Your task to perform on an android device: Empty the shopping cart on target.com. Add "usb-c" to the cart on target.com, then select checkout. Image 0: 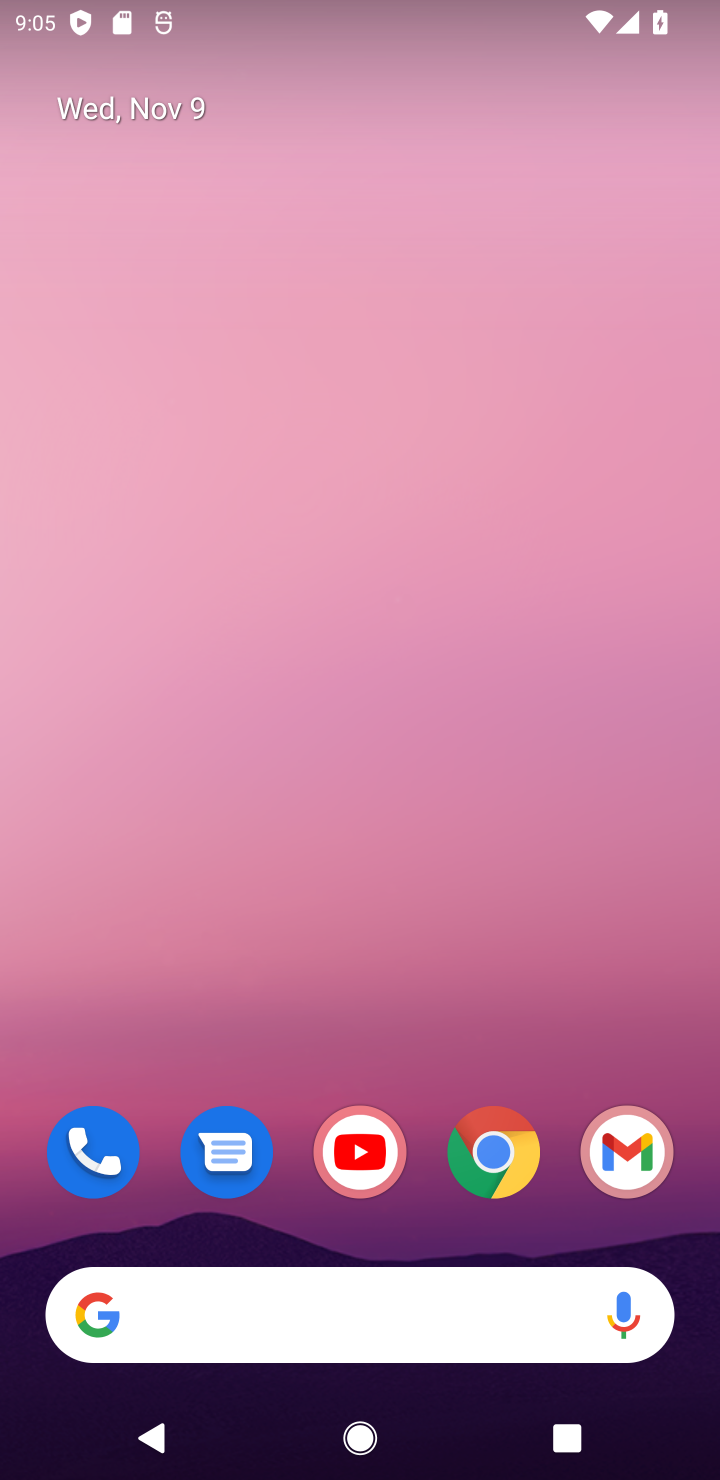
Step 0: click (487, 1155)
Your task to perform on an android device: Empty the shopping cart on target.com. Add "usb-c" to the cart on target.com, then select checkout. Image 1: 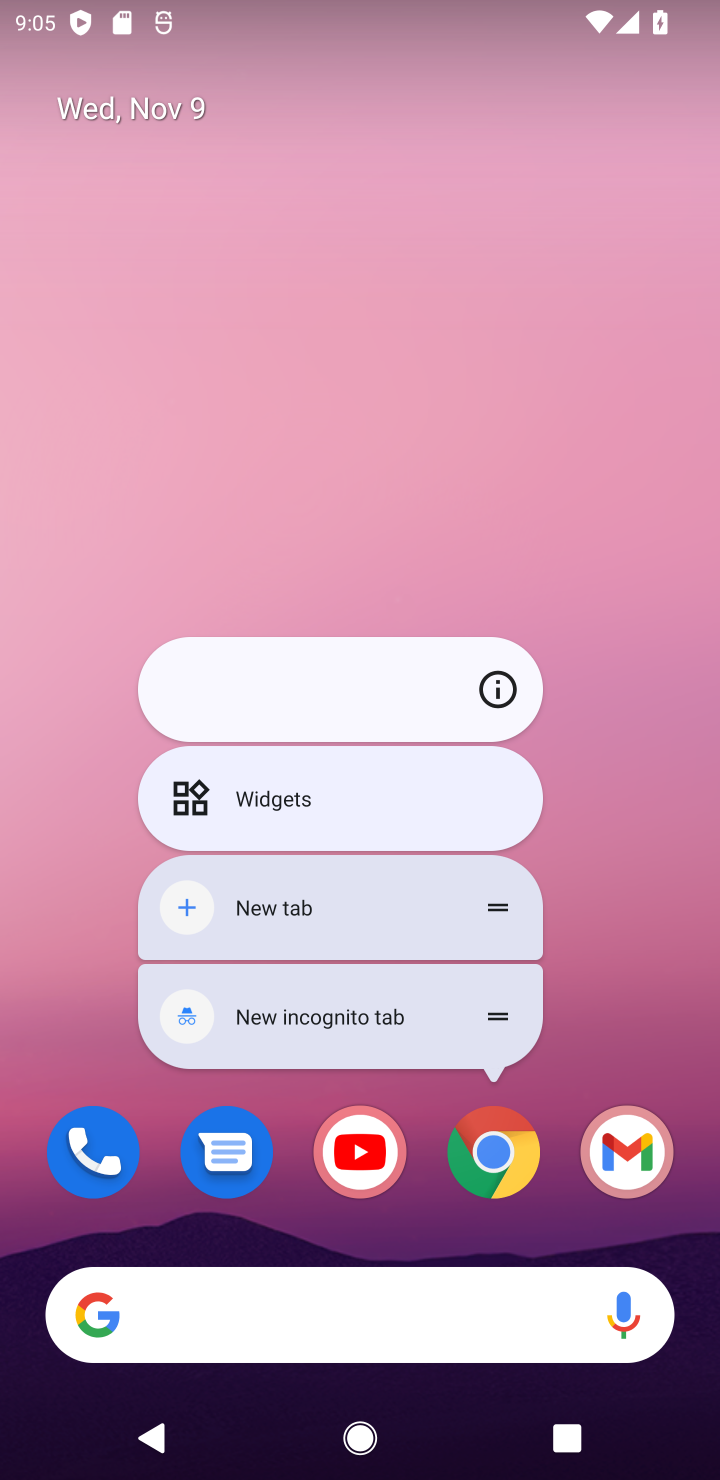
Step 1: click (487, 1160)
Your task to perform on an android device: Empty the shopping cart on target.com. Add "usb-c" to the cart on target.com, then select checkout. Image 2: 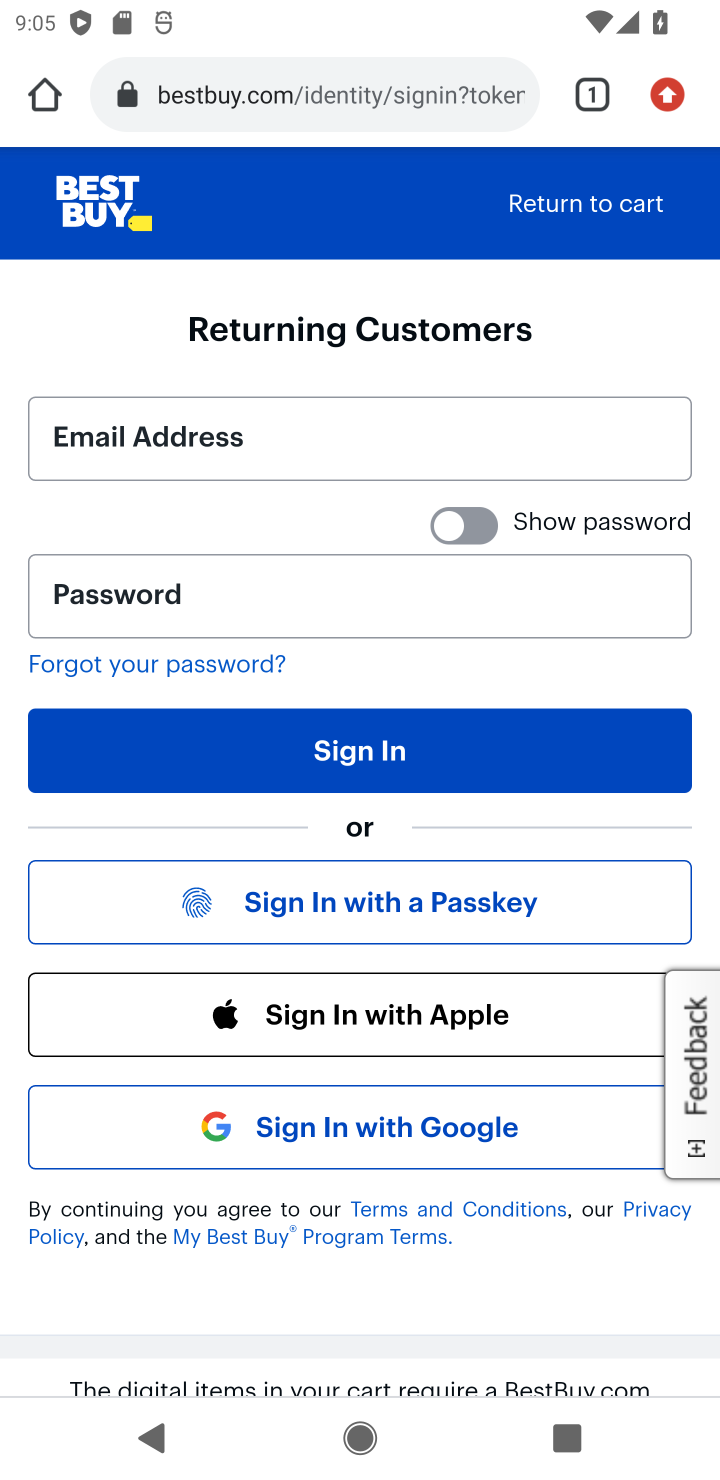
Step 2: click (344, 90)
Your task to perform on an android device: Empty the shopping cart on target.com. Add "usb-c" to the cart on target.com, then select checkout. Image 3: 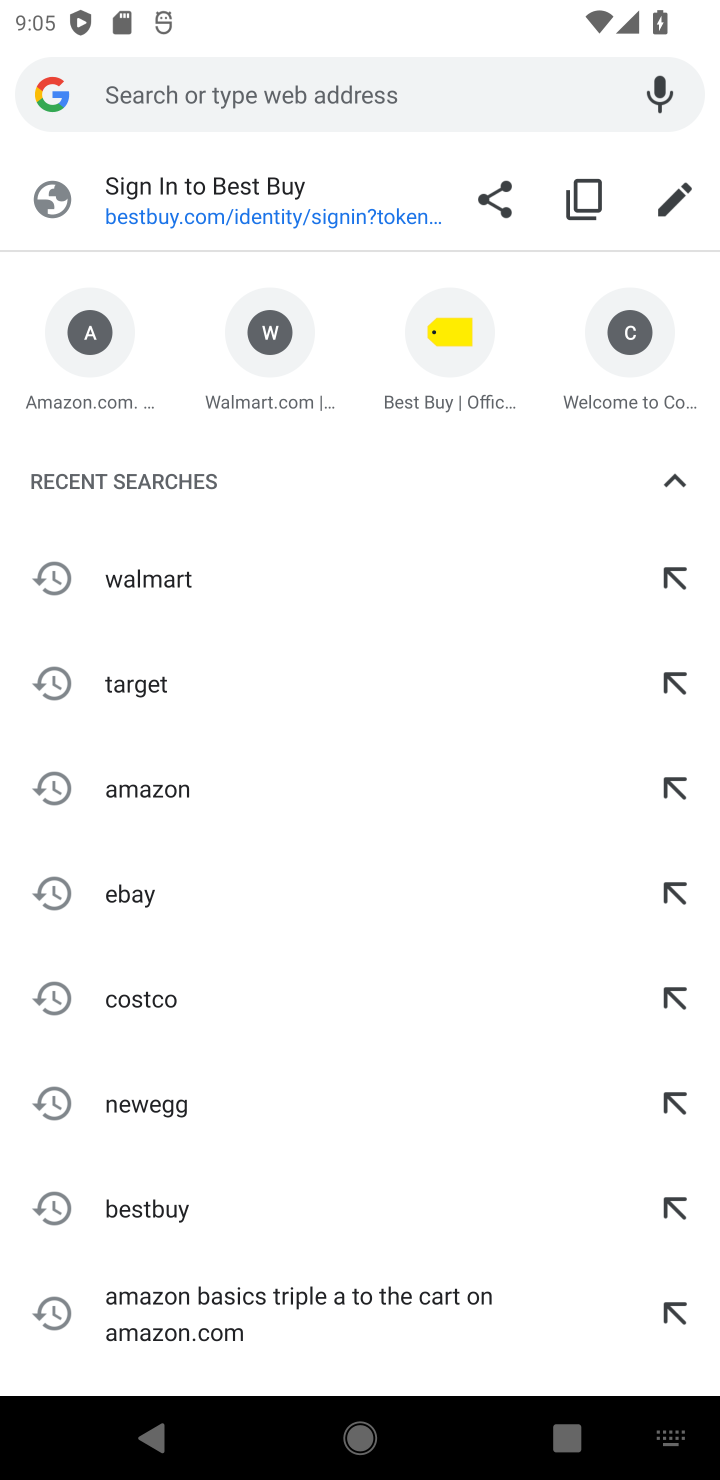
Step 3: click (133, 678)
Your task to perform on an android device: Empty the shopping cart on target.com. Add "usb-c" to the cart on target.com, then select checkout. Image 4: 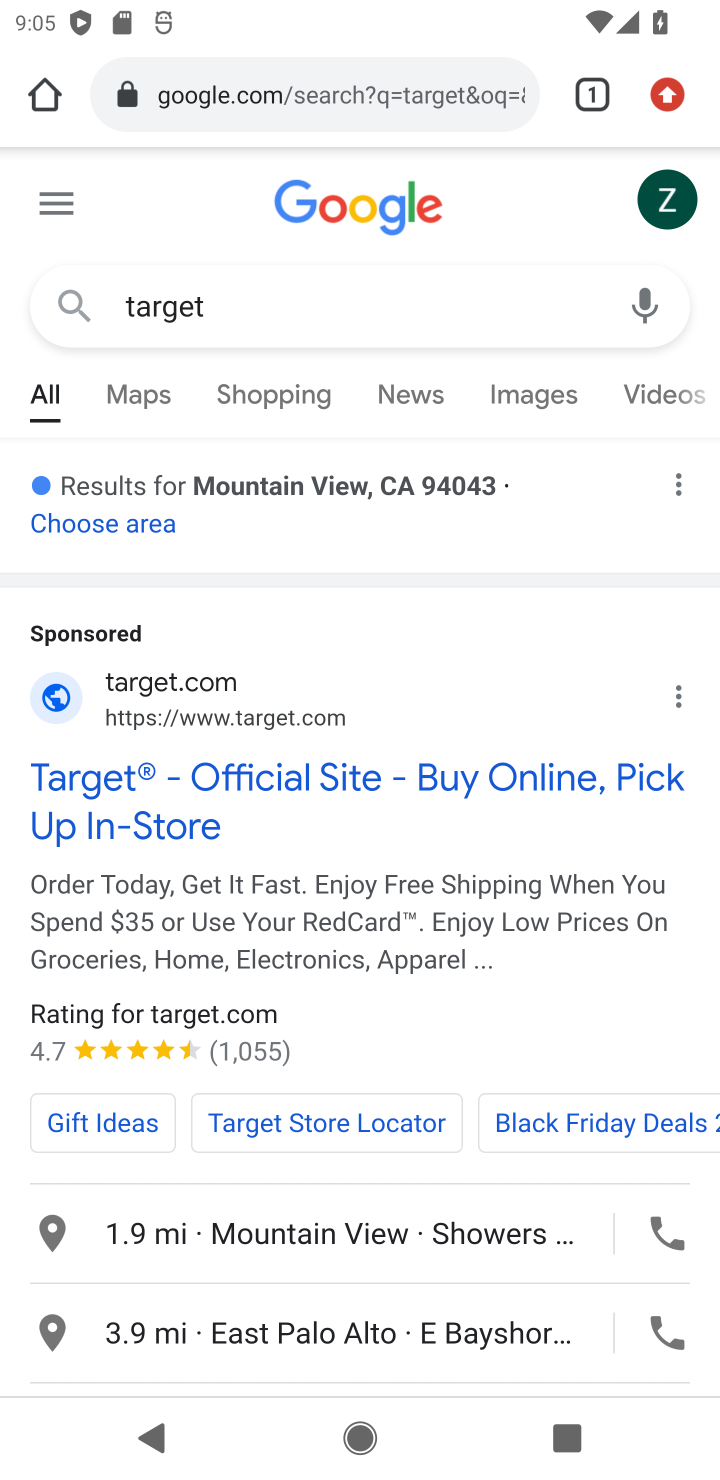
Step 4: drag from (243, 1109) to (541, 306)
Your task to perform on an android device: Empty the shopping cart on target.com. Add "usb-c" to the cart on target.com, then select checkout. Image 5: 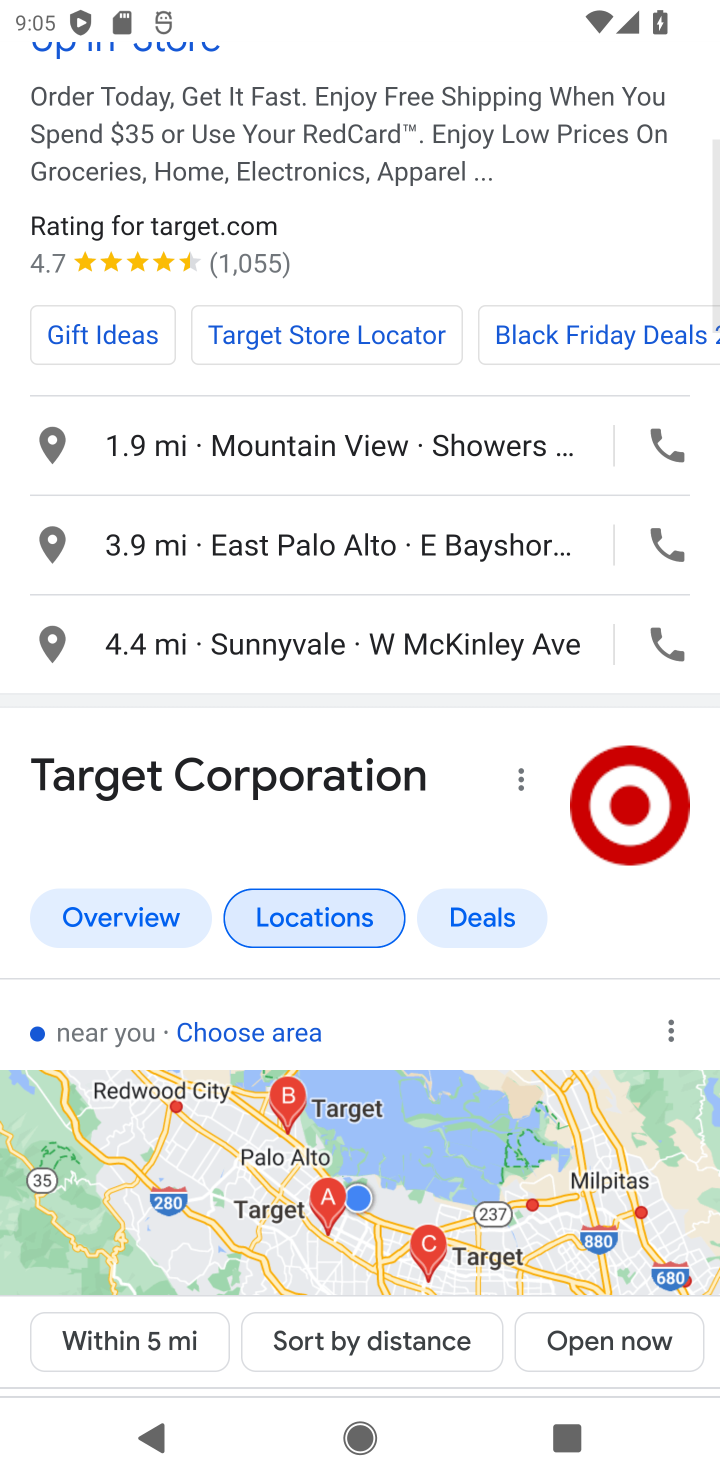
Step 5: drag from (307, 1103) to (414, 286)
Your task to perform on an android device: Empty the shopping cart on target.com. Add "usb-c" to the cart on target.com, then select checkout. Image 6: 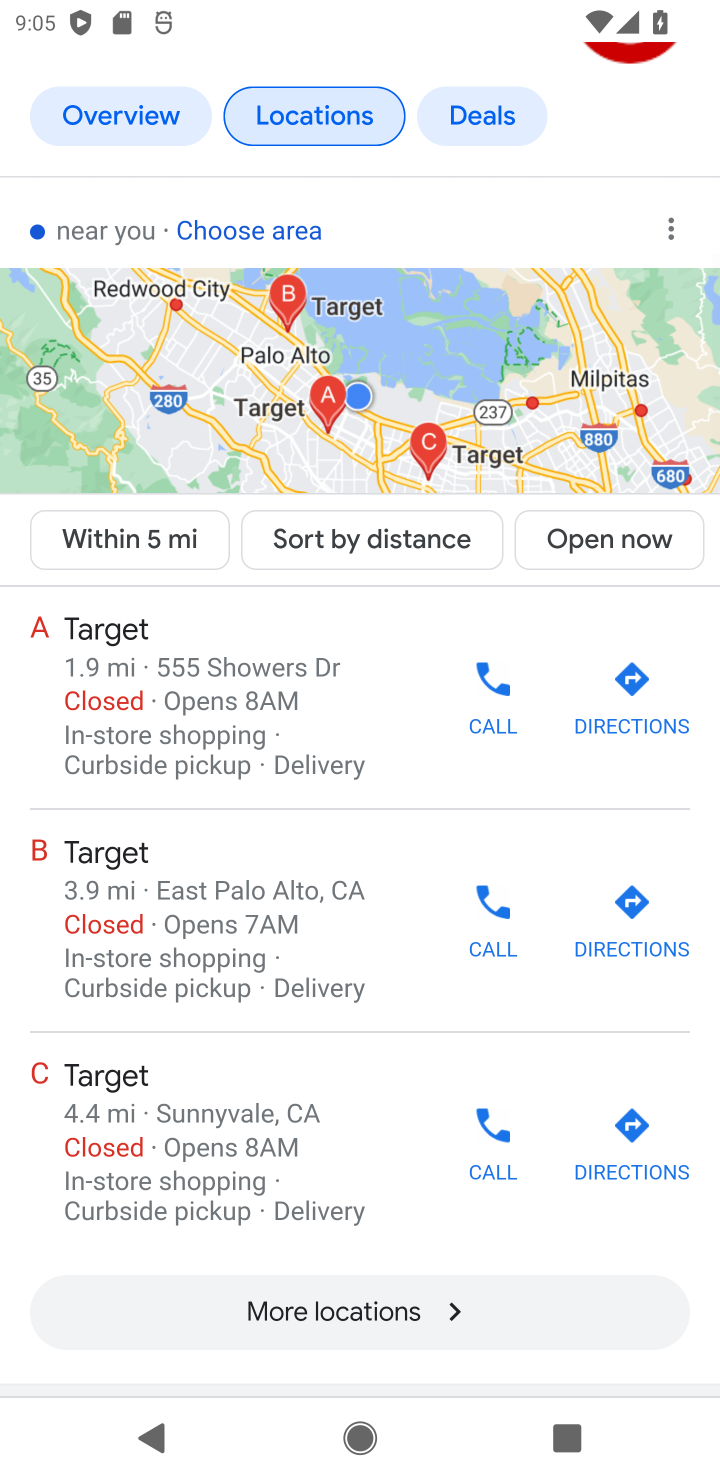
Step 6: drag from (308, 1197) to (438, 232)
Your task to perform on an android device: Empty the shopping cart on target.com. Add "usb-c" to the cart on target.com, then select checkout. Image 7: 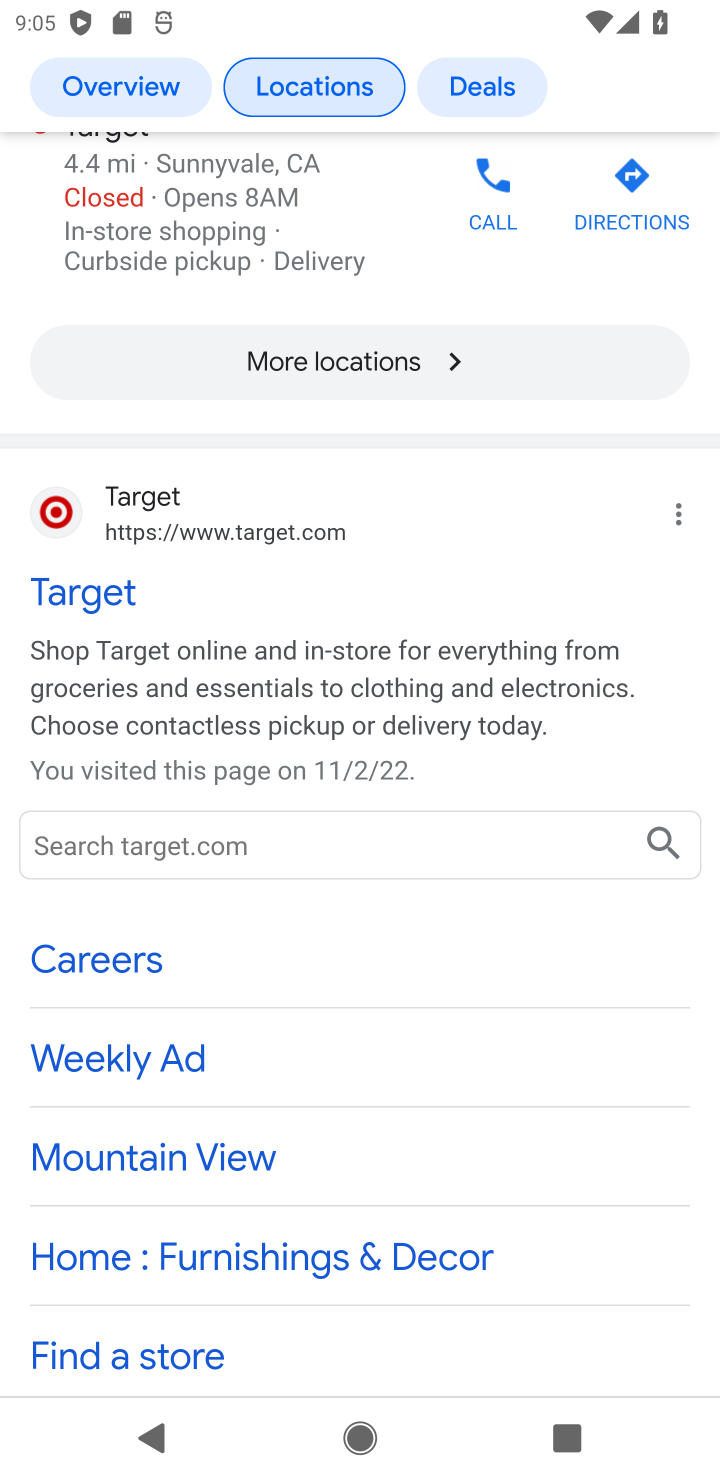
Step 7: click (86, 589)
Your task to perform on an android device: Empty the shopping cart on target.com. Add "usb-c" to the cart on target.com, then select checkout. Image 8: 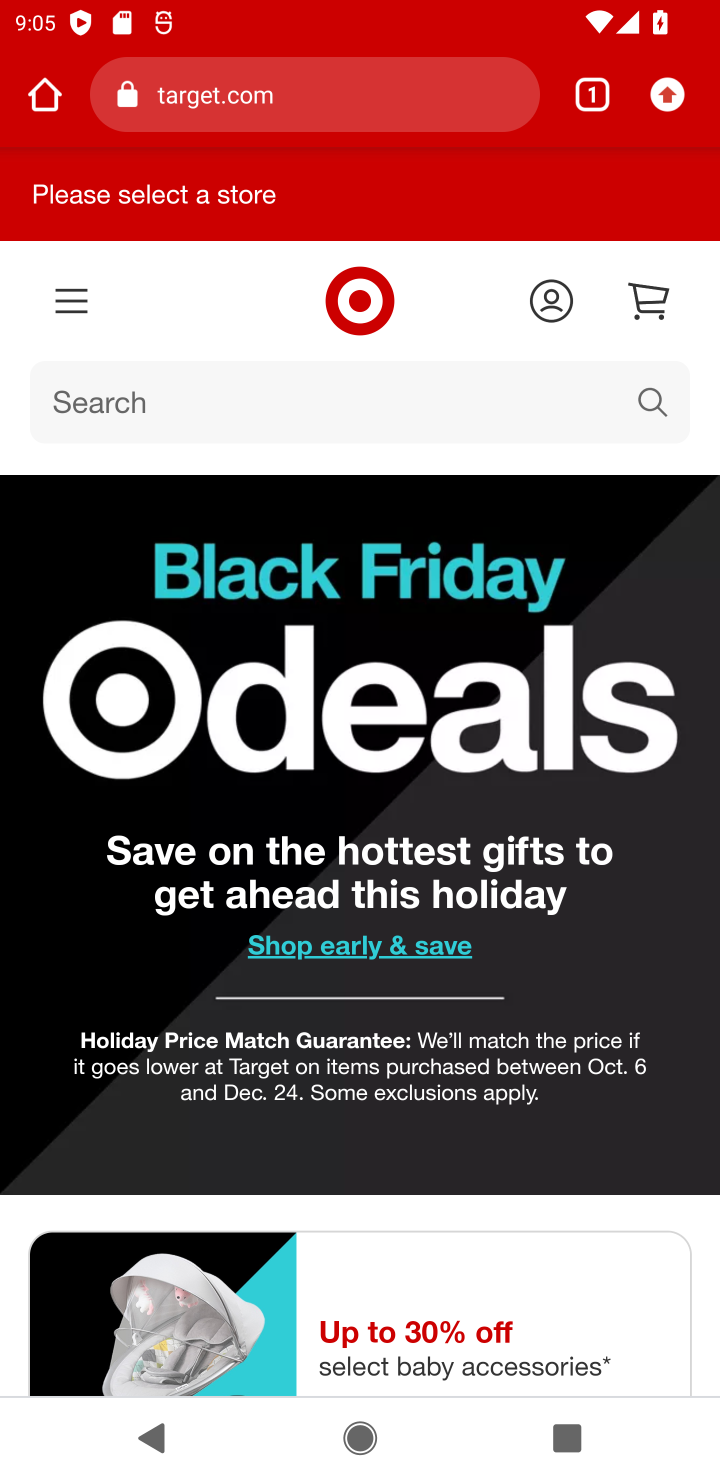
Step 8: click (192, 412)
Your task to perform on an android device: Empty the shopping cart on target.com. Add "usb-c" to the cart on target.com, then select checkout. Image 9: 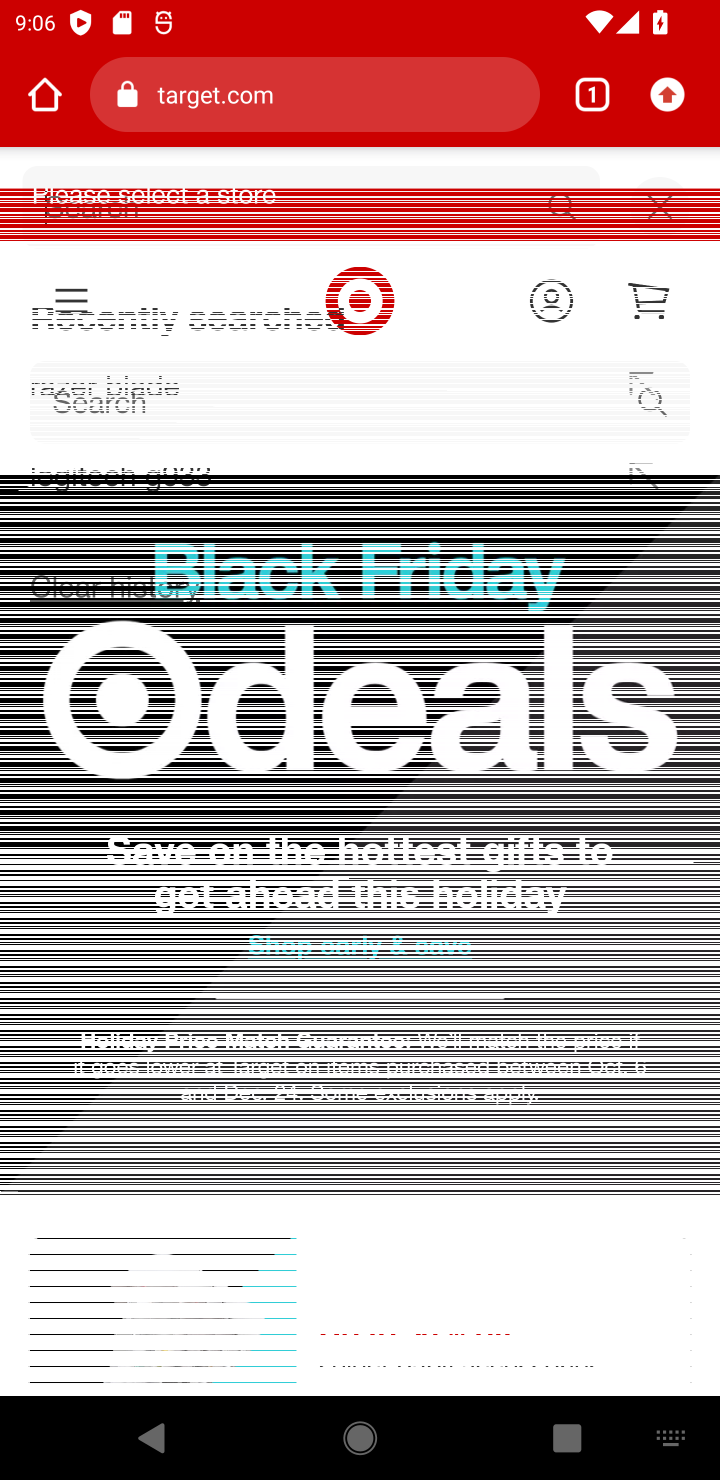
Step 9: press enter
Your task to perform on an android device: Empty the shopping cart on target.com. Add "usb-c" to the cart on target.com, then select checkout. Image 10: 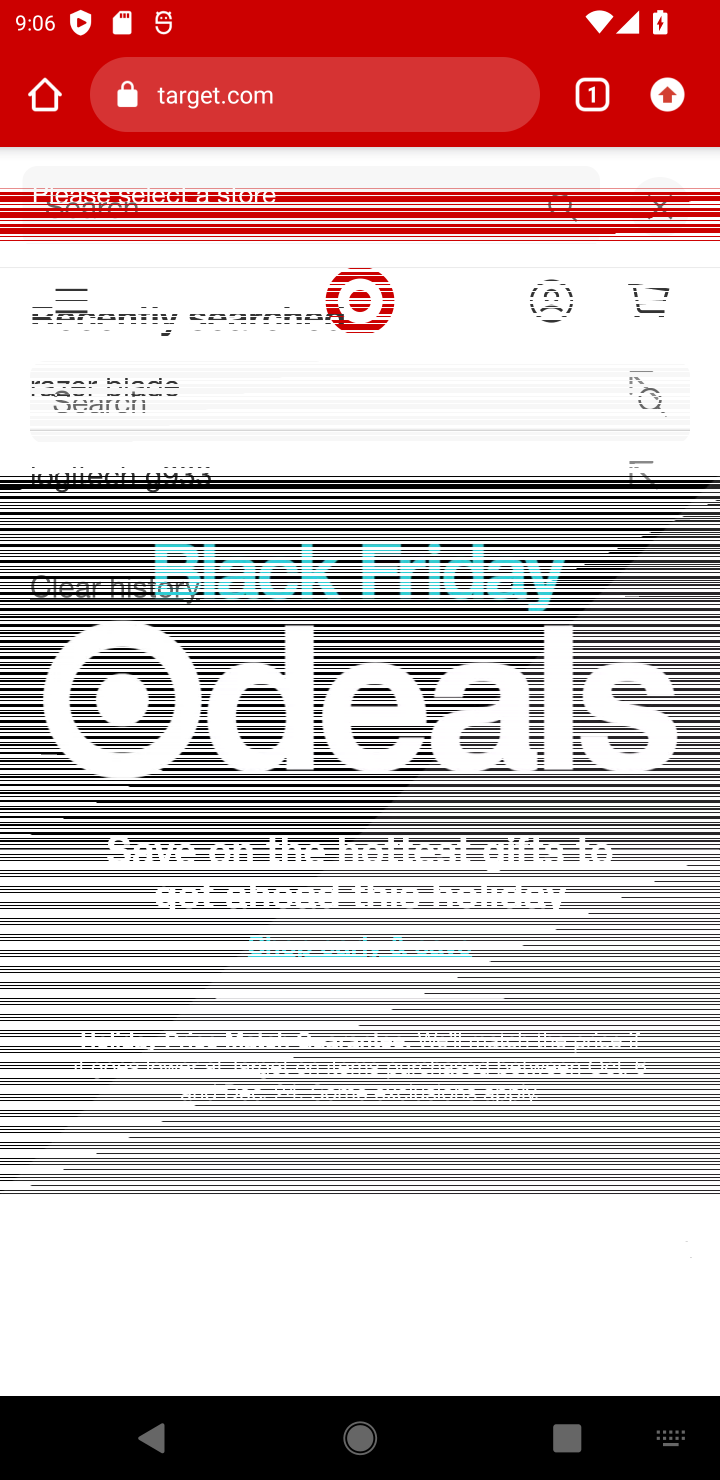
Step 10: type "usb-c"
Your task to perform on an android device: Empty the shopping cart on target.com. Add "usb-c" to the cart on target.com, then select checkout. Image 11: 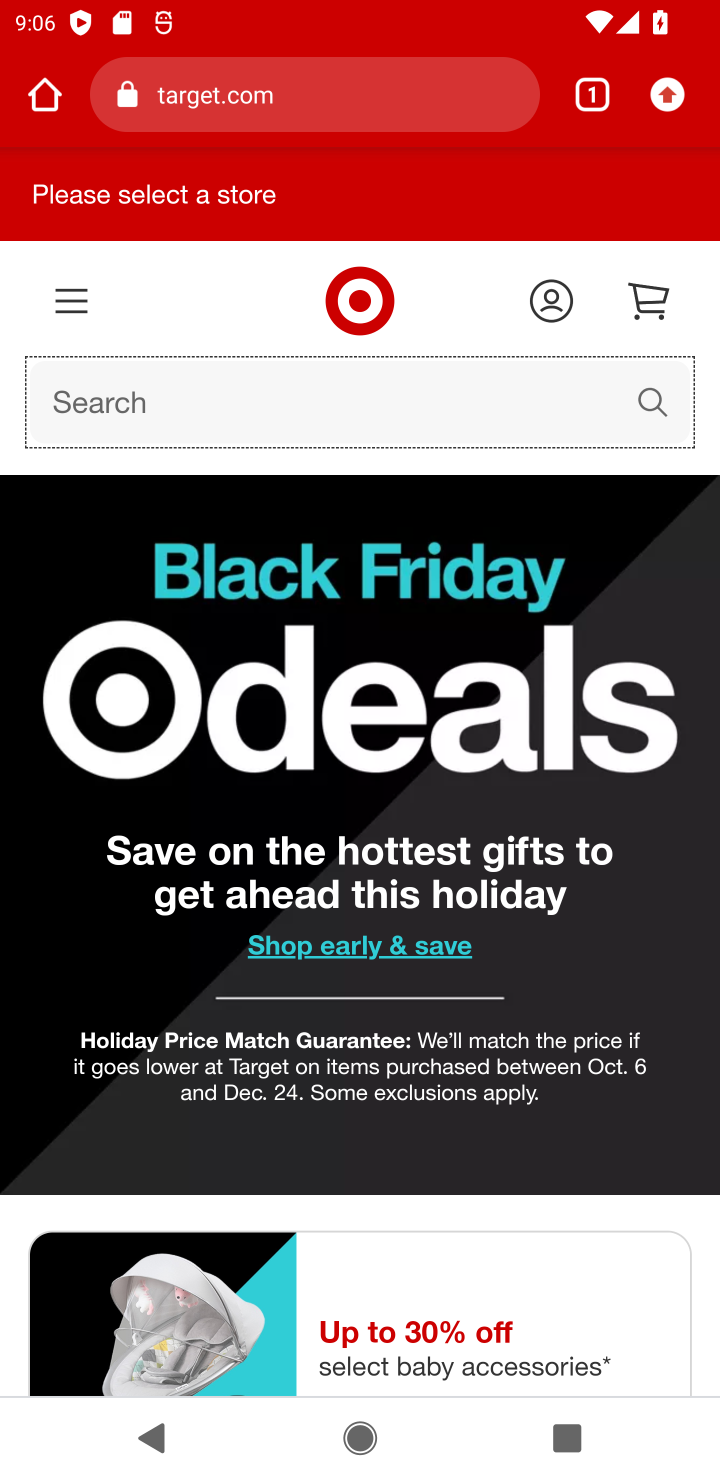
Step 11: click (19, 390)
Your task to perform on an android device: Empty the shopping cart on target.com. Add "usb-c" to the cart on target.com, then select checkout. Image 12: 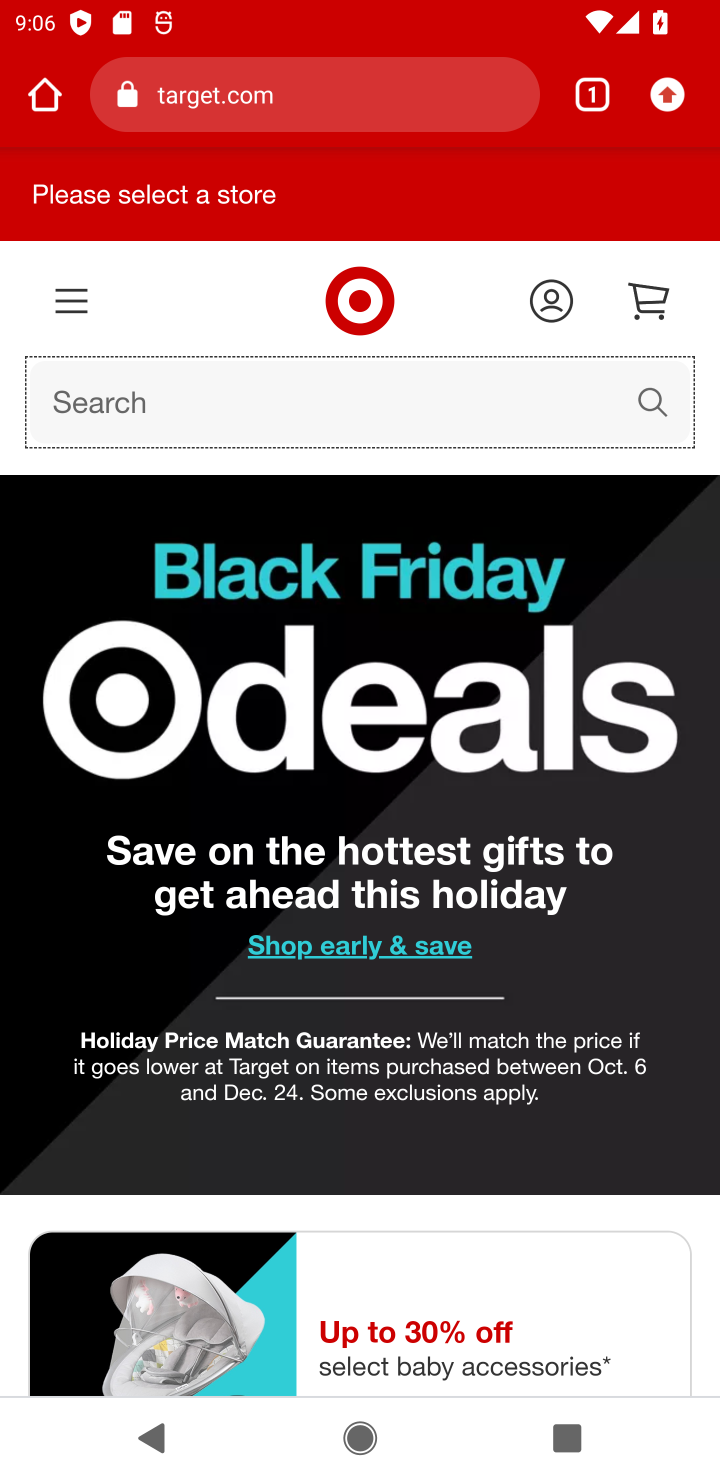
Step 12: click (66, 409)
Your task to perform on an android device: Empty the shopping cart on target.com. Add "usb-c" to the cart on target.com, then select checkout. Image 13: 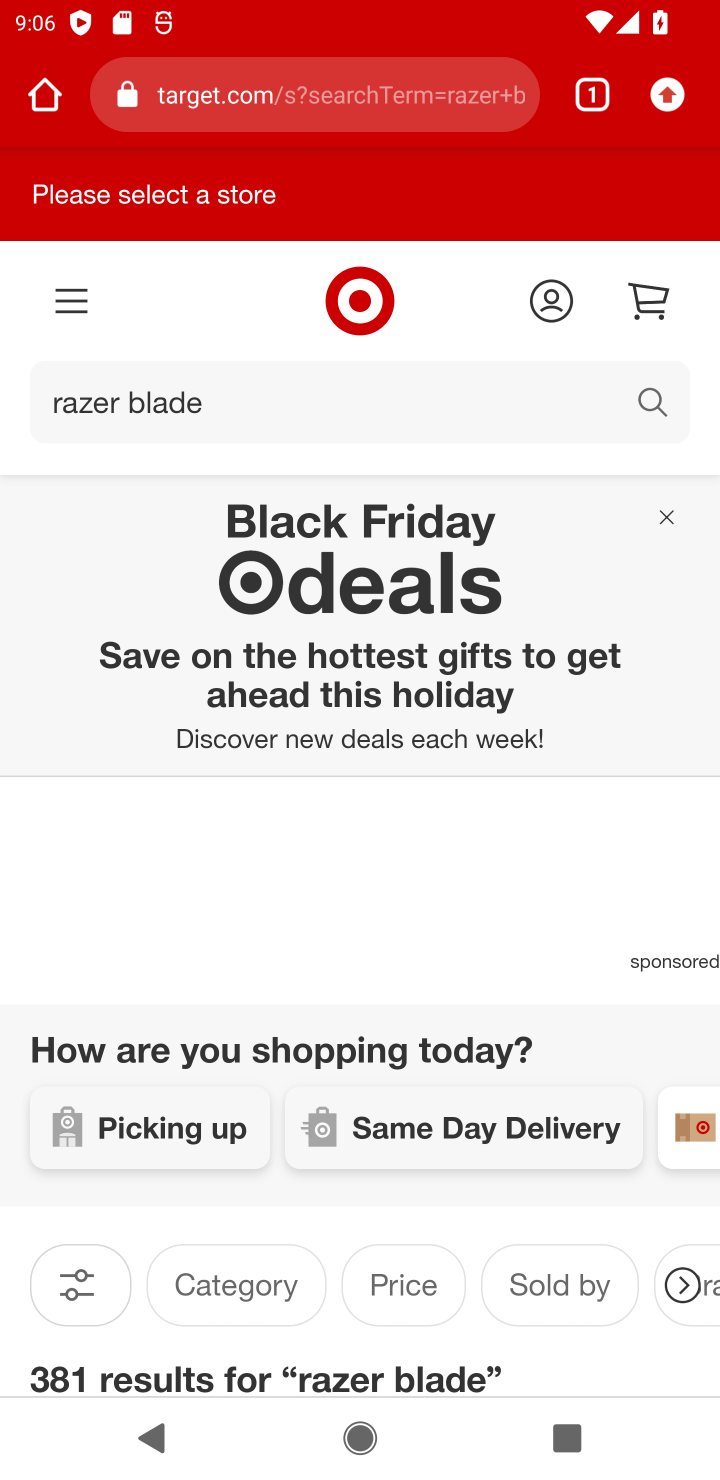
Step 13: click (513, 397)
Your task to perform on an android device: Empty the shopping cart on target.com. Add "usb-c" to the cart on target.com, then select checkout. Image 14: 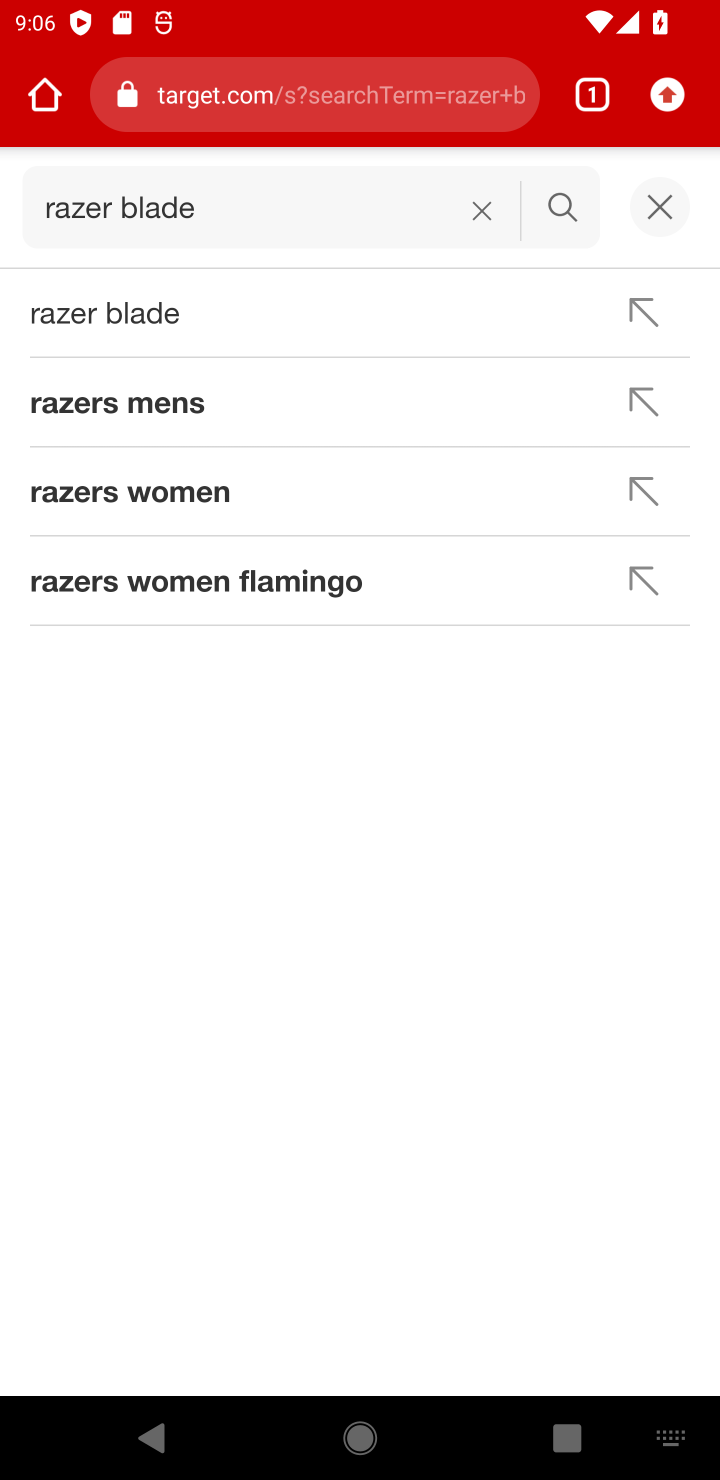
Step 14: click (477, 215)
Your task to perform on an android device: Empty the shopping cart on target.com. Add "usb-c" to the cart on target.com, then select checkout. Image 15: 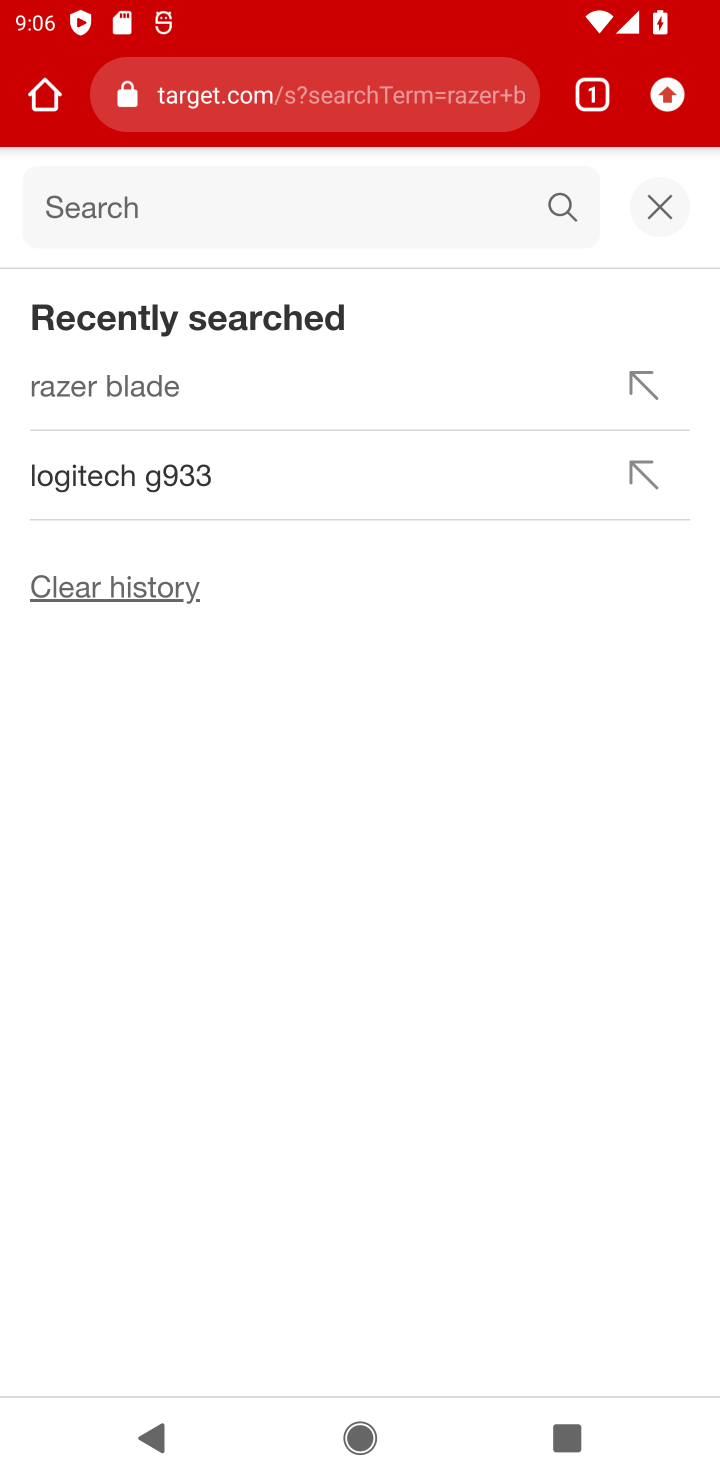
Step 15: click (64, 181)
Your task to perform on an android device: Empty the shopping cart on target.com. Add "usb-c" to the cart on target.com, then select checkout. Image 16: 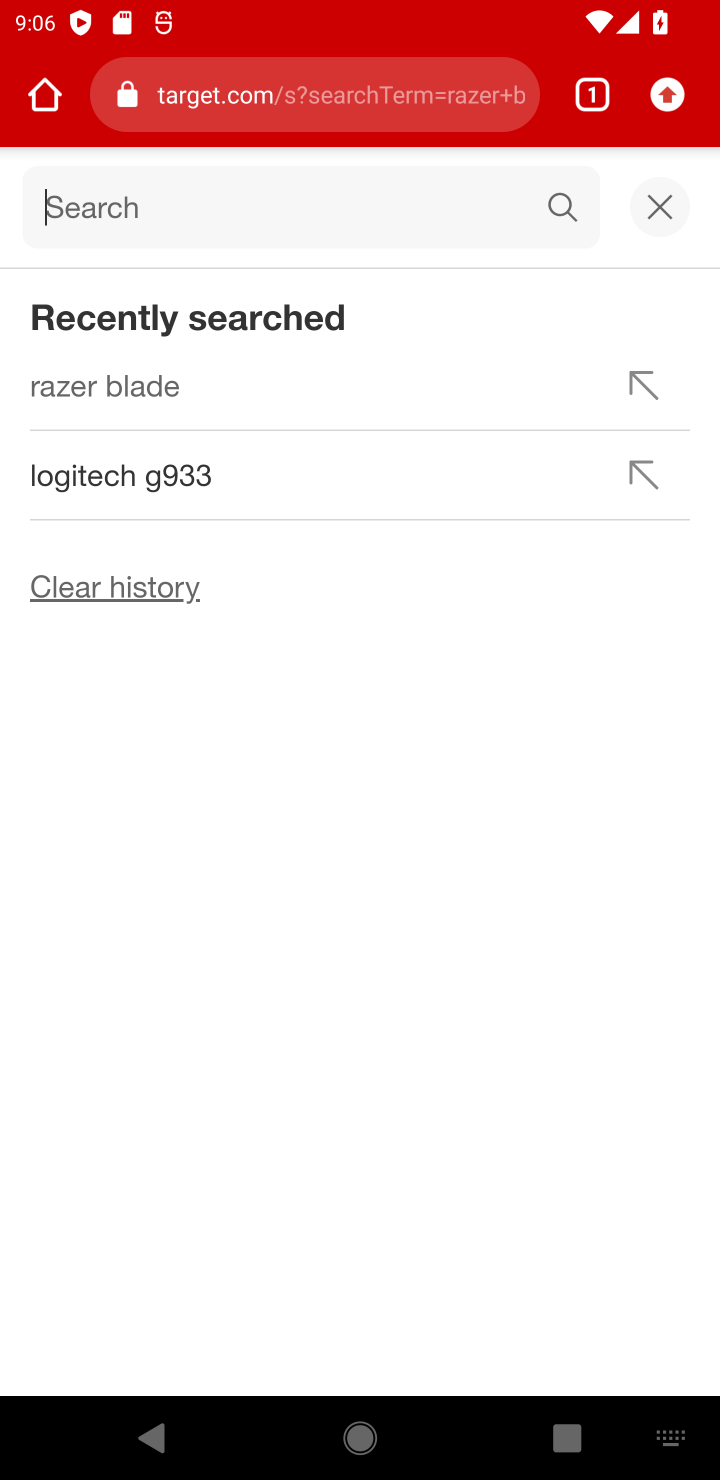
Step 16: press enter
Your task to perform on an android device: Empty the shopping cart on target.com. Add "usb-c" to the cart on target.com, then select checkout. Image 17: 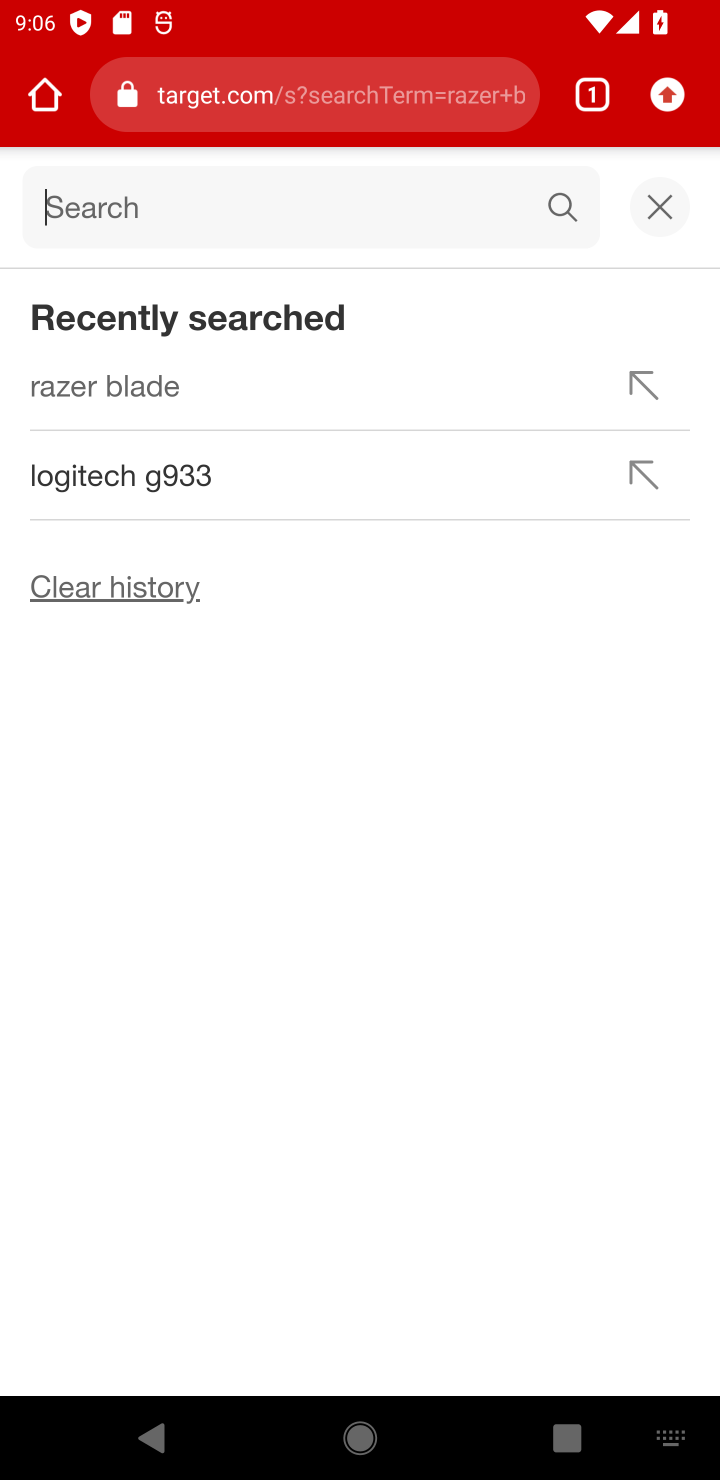
Step 17: type "usb-c"
Your task to perform on an android device: Empty the shopping cart on target.com. Add "usb-c" to the cart on target.com, then select checkout. Image 18: 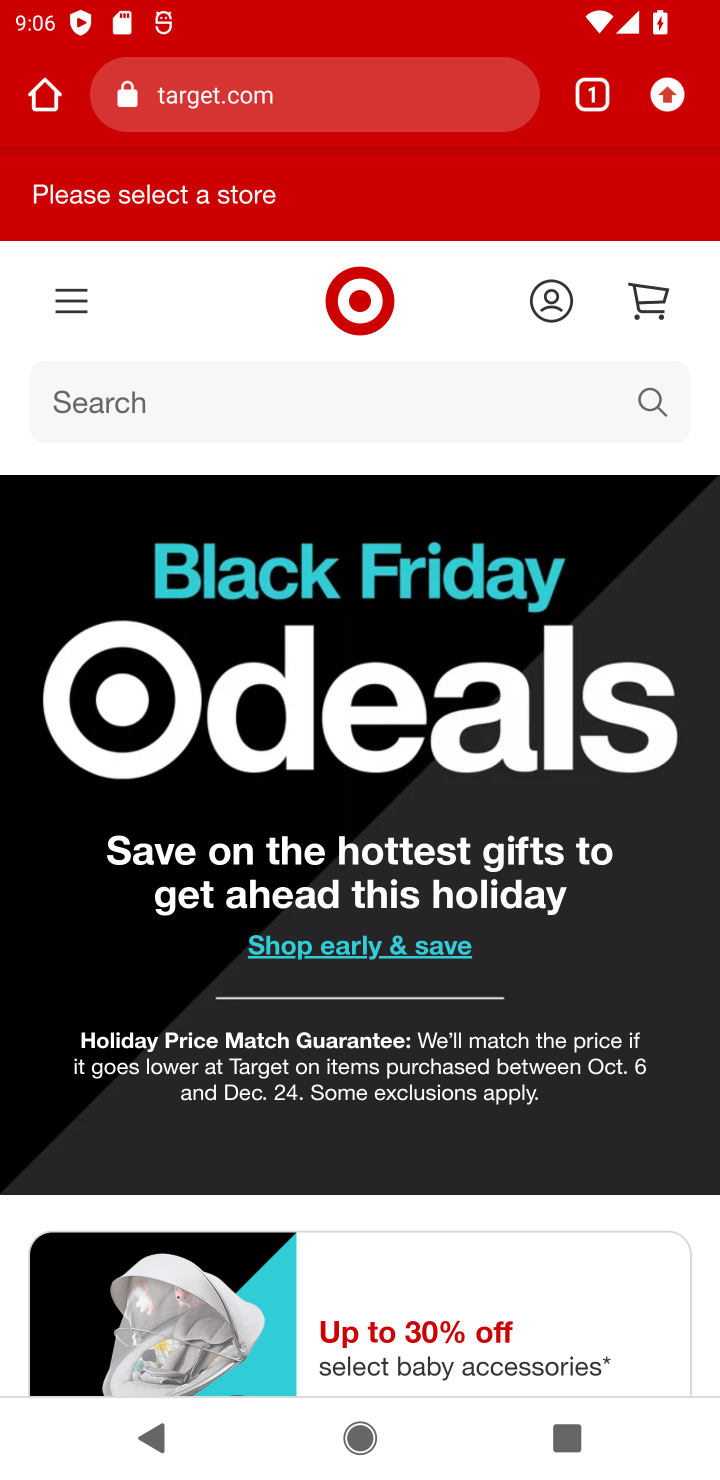
Step 18: click (125, 398)
Your task to perform on an android device: Empty the shopping cart on target.com. Add "usb-c" to the cart on target.com, then select checkout. Image 19: 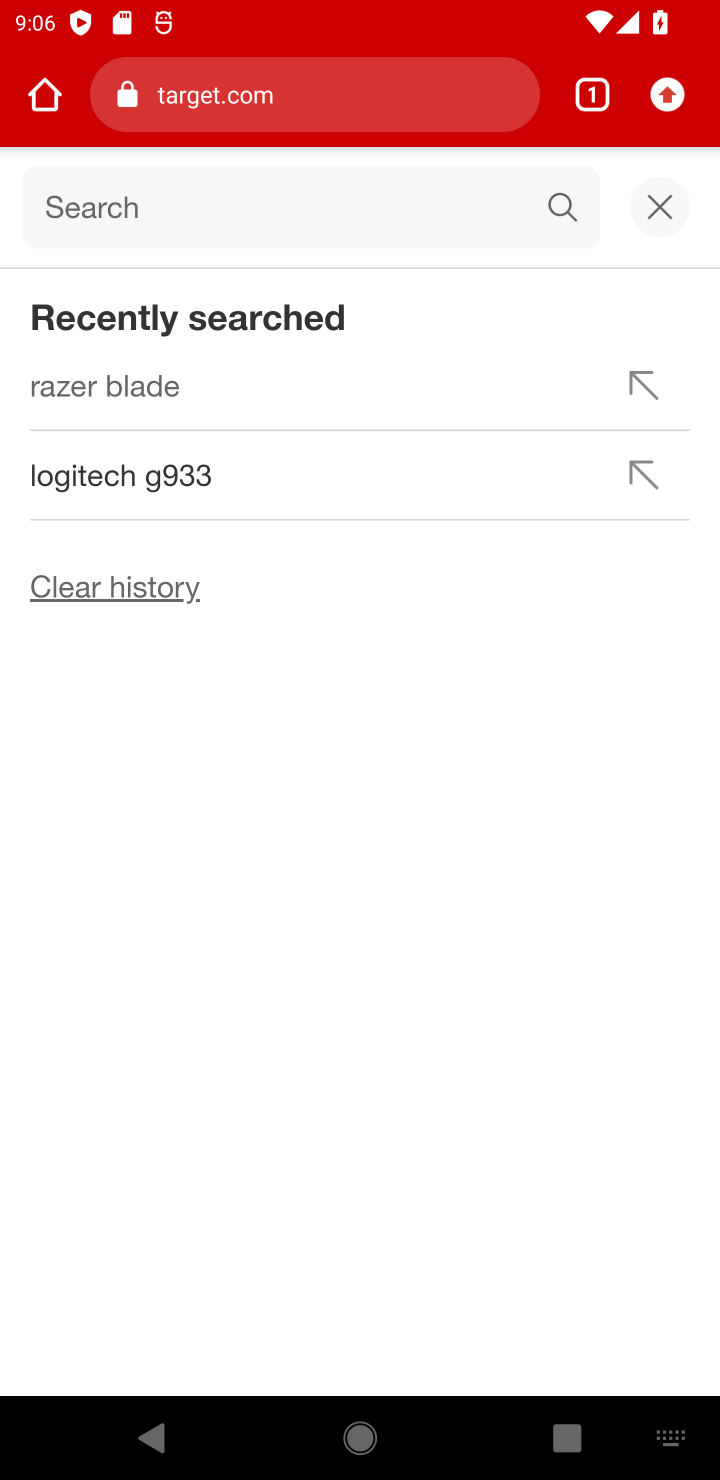
Step 19: type "usb-c"
Your task to perform on an android device: Empty the shopping cart on target.com. Add "usb-c" to the cart on target.com, then select checkout. Image 20: 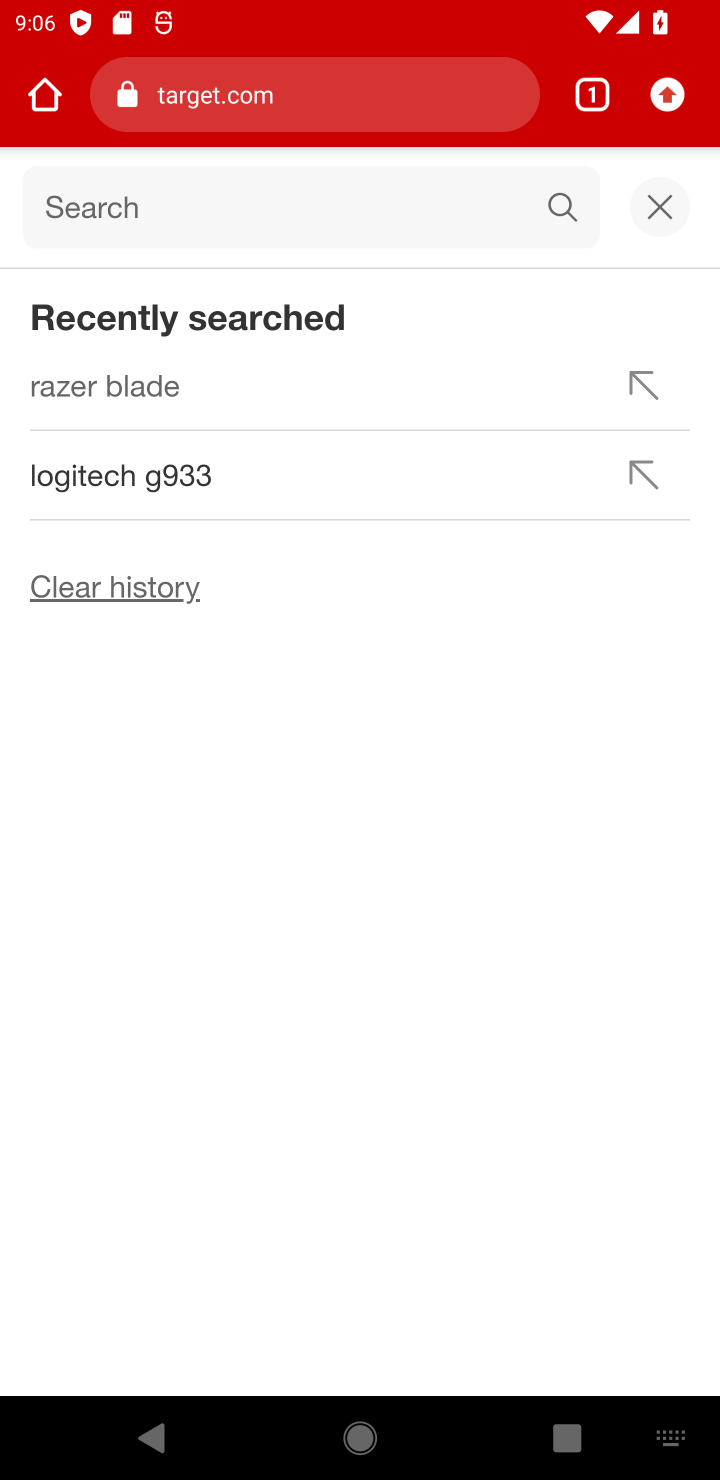
Step 20: press enter
Your task to perform on an android device: Empty the shopping cart on target.com. Add "usb-c" to the cart on target.com, then select checkout. Image 21: 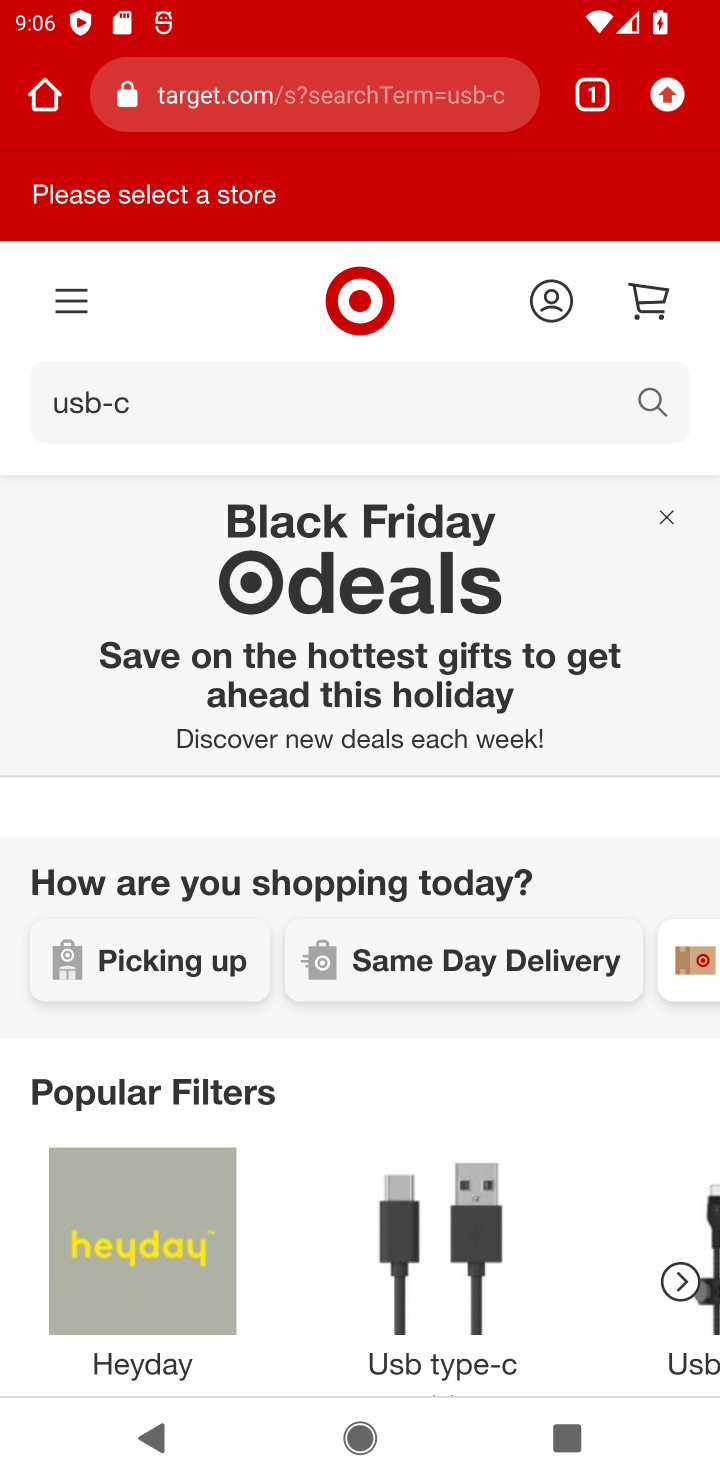
Step 21: drag from (350, 1231) to (546, 323)
Your task to perform on an android device: Empty the shopping cart on target.com. Add "usb-c" to the cart on target.com, then select checkout. Image 22: 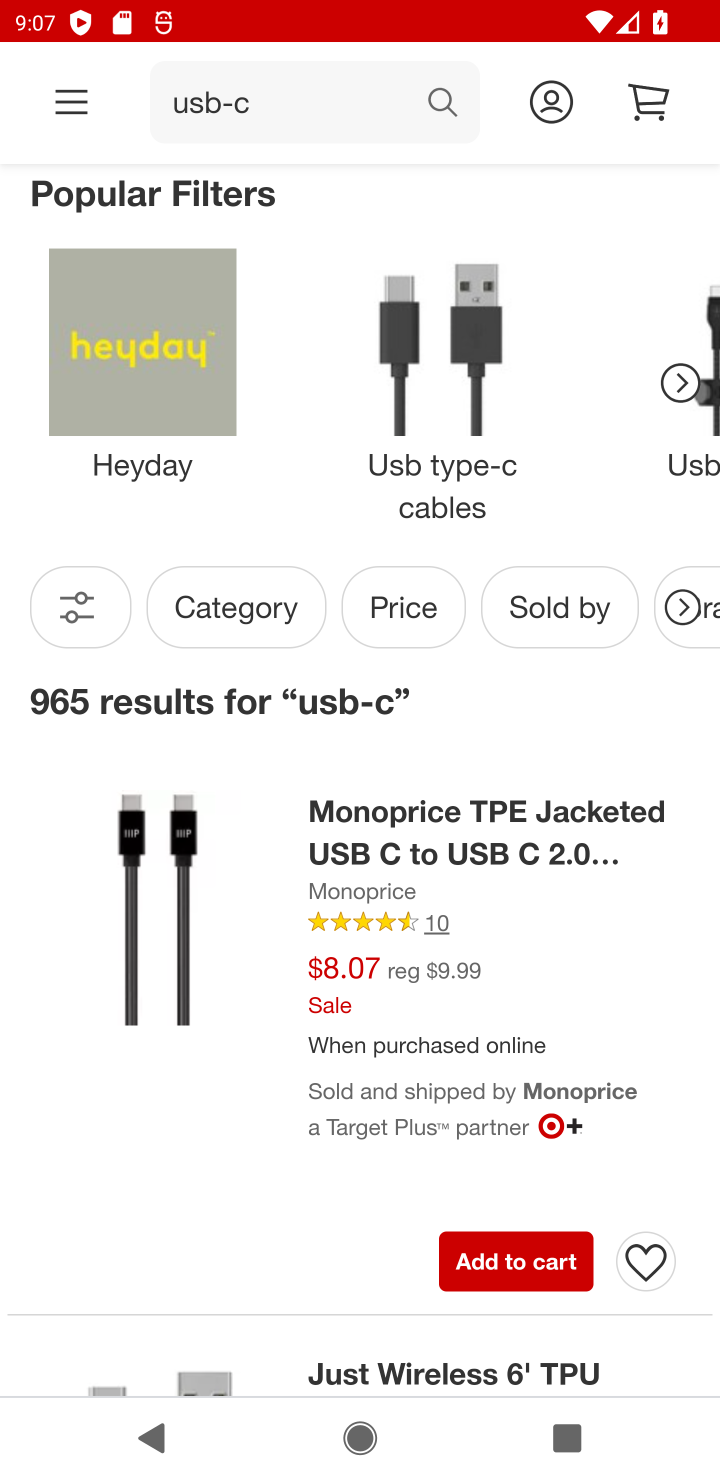
Step 22: click (442, 993)
Your task to perform on an android device: Empty the shopping cart on target.com. Add "usb-c" to the cart on target.com, then select checkout. Image 23: 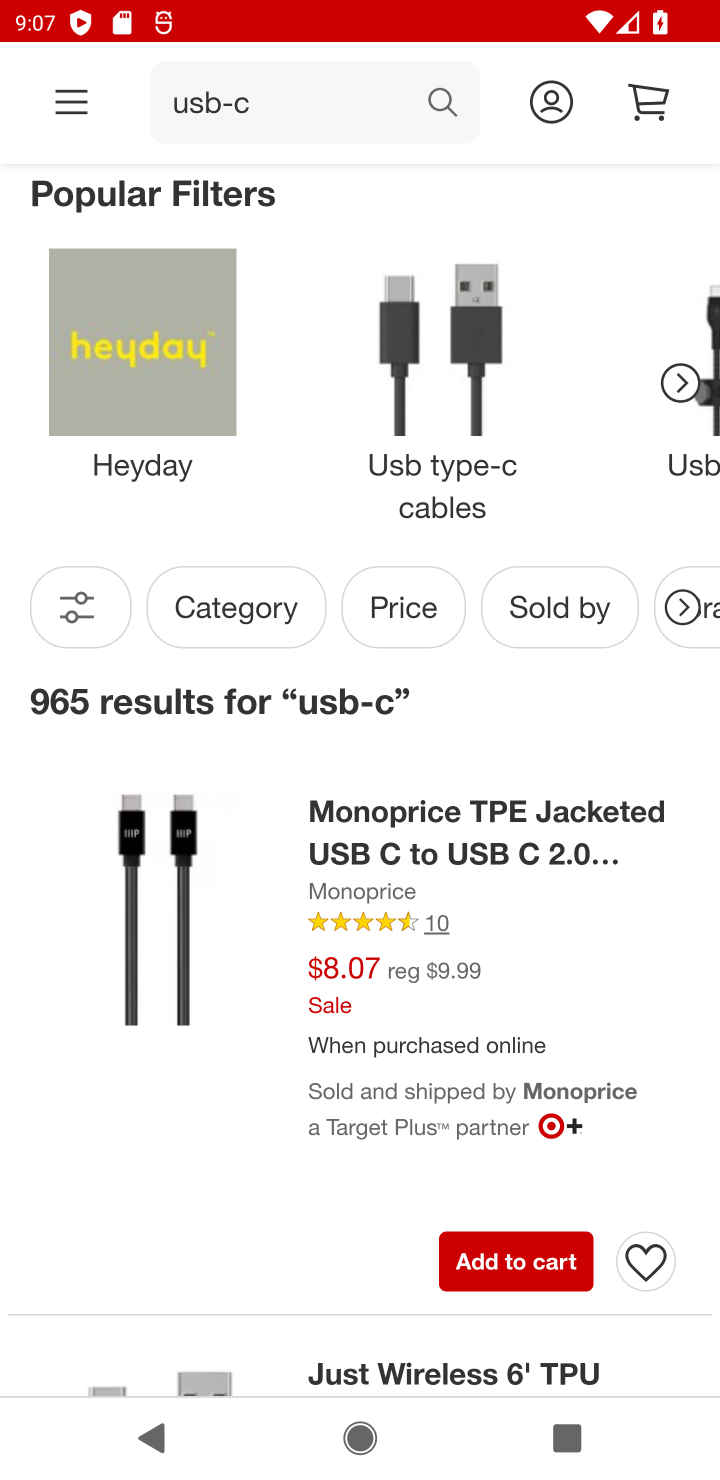
Step 23: click (435, 822)
Your task to perform on an android device: Empty the shopping cart on target.com. Add "usb-c" to the cart on target.com, then select checkout. Image 24: 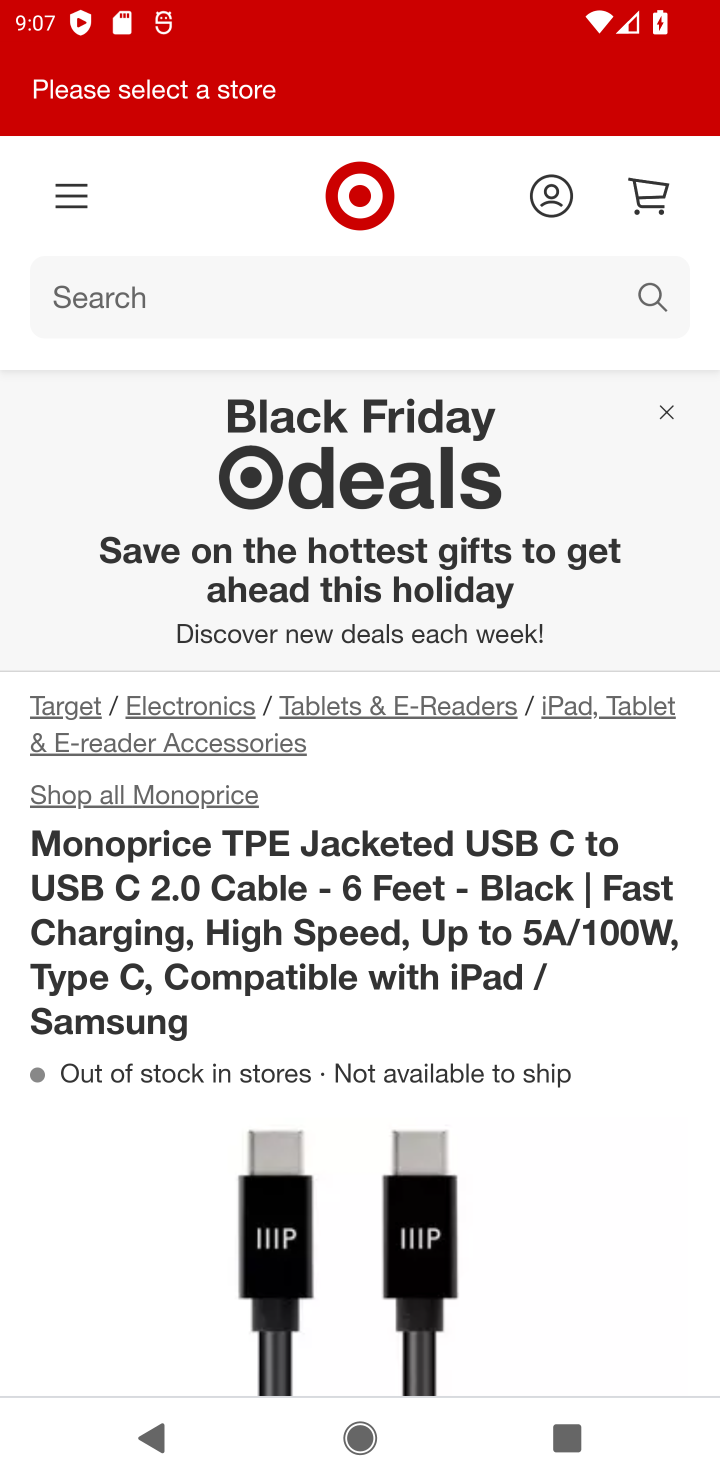
Step 24: drag from (498, 1178) to (581, 151)
Your task to perform on an android device: Empty the shopping cart on target.com. Add "usb-c" to the cart on target.com, then select checkout. Image 25: 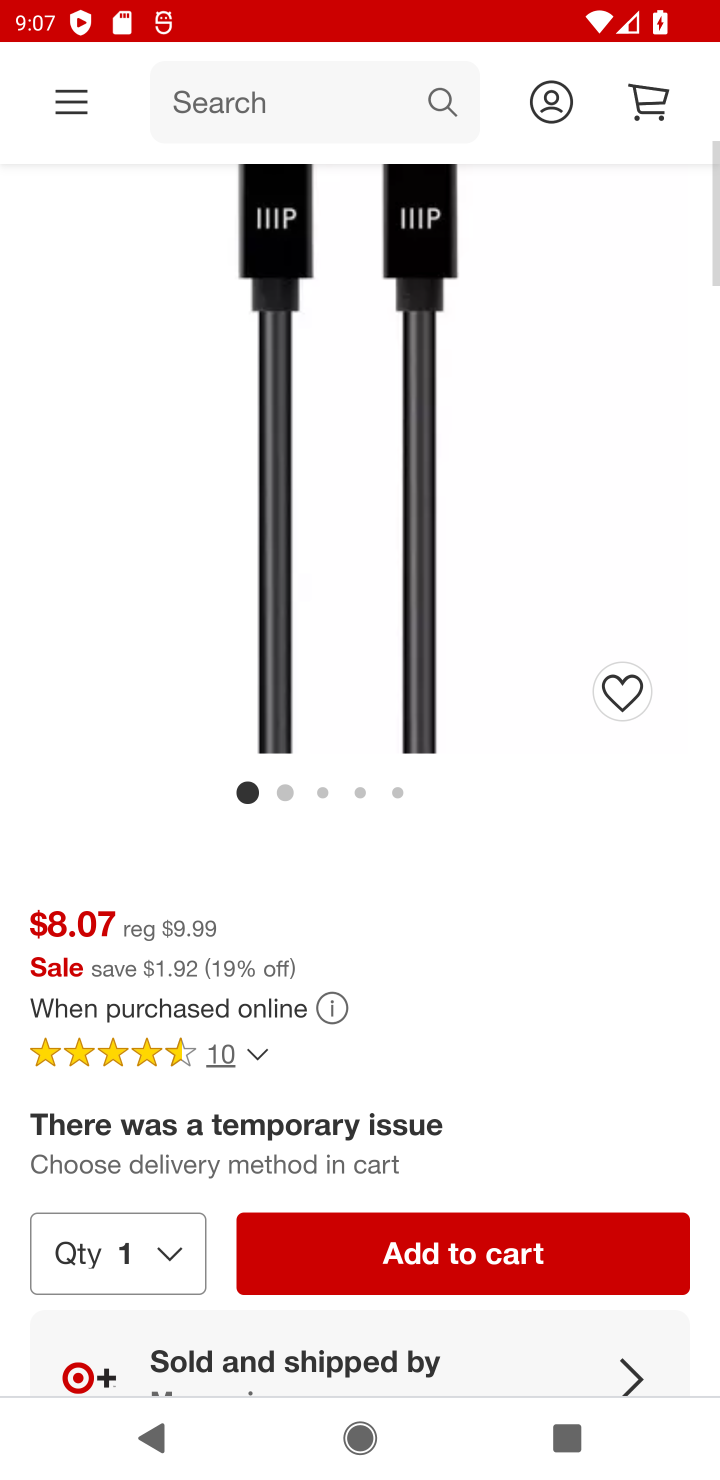
Step 25: drag from (509, 1162) to (537, 572)
Your task to perform on an android device: Empty the shopping cart on target.com. Add "usb-c" to the cart on target.com, then select checkout. Image 26: 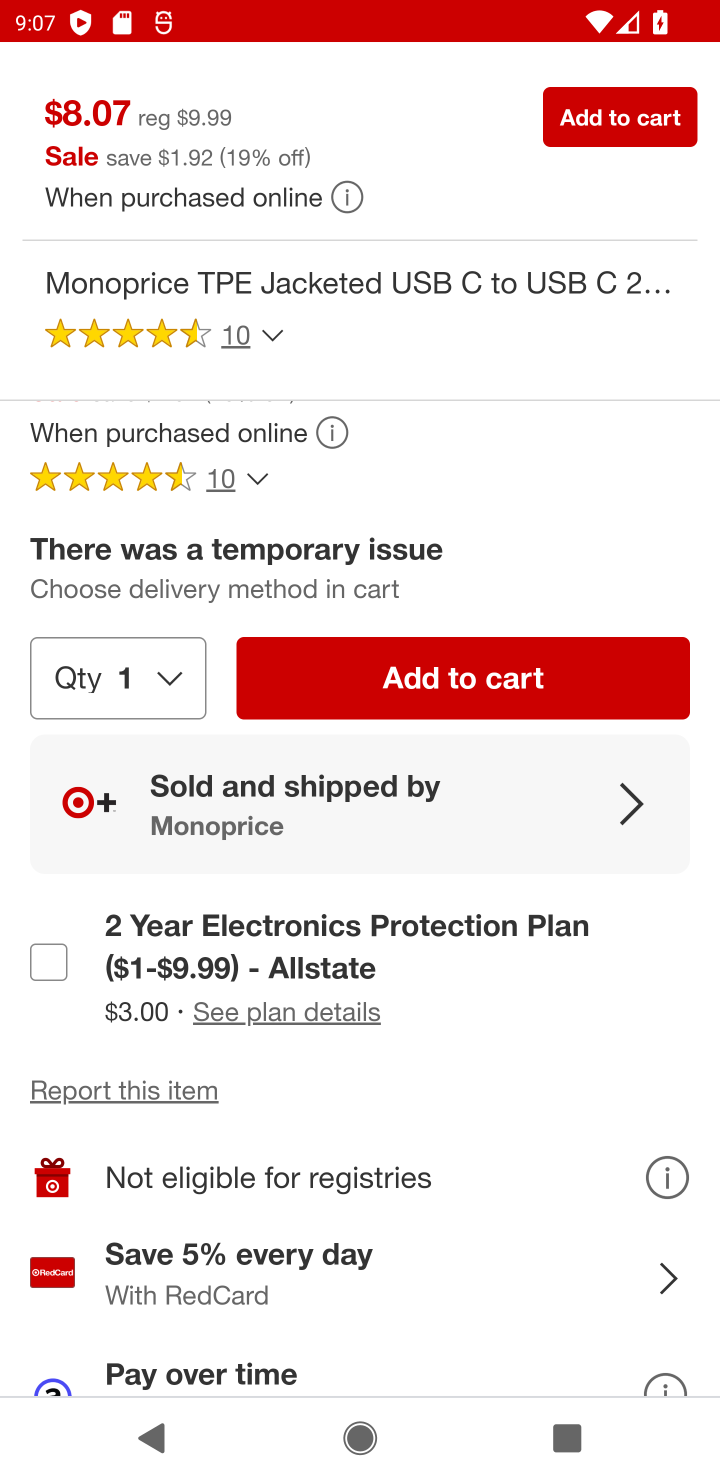
Step 26: click (477, 680)
Your task to perform on an android device: Empty the shopping cart on target.com. Add "usb-c" to the cart on target.com, then select checkout. Image 27: 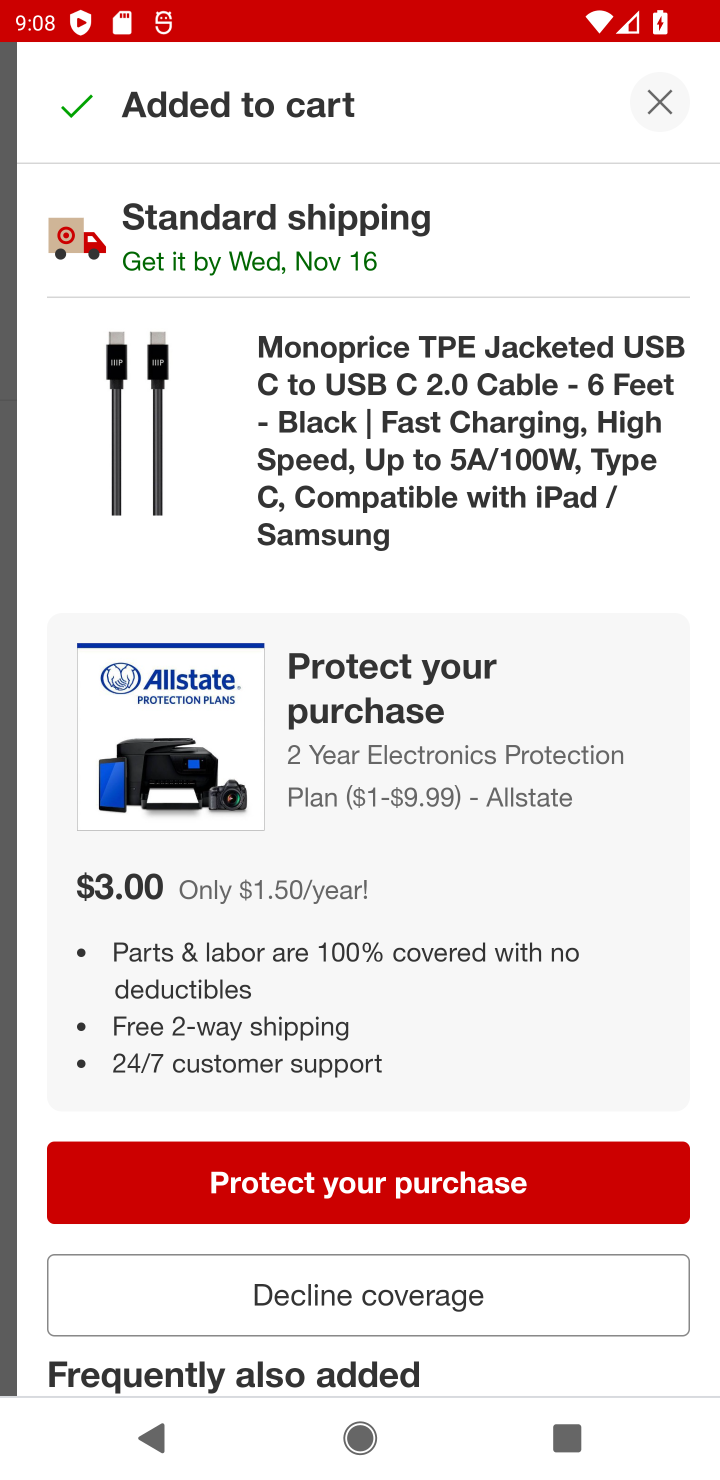
Step 27: click (363, 1298)
Your task to perform on an android device: Empty the shopping cart on target.com. Add "usb-c" to the cart on target.com, then select checkout. Image 28: 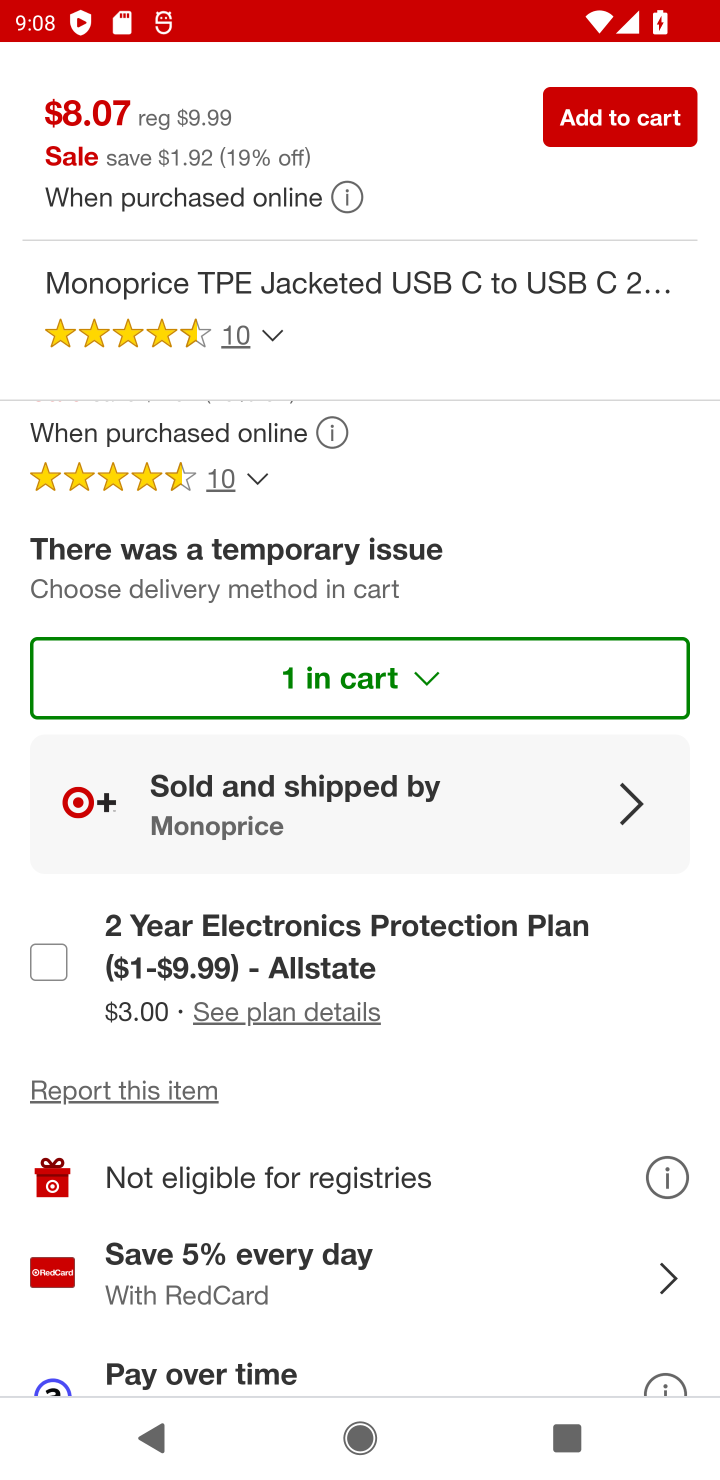
Step 28: click (255, 667)
Your task to perform on an android device: Empty the shopping cart on target.com. Add "usb-c" to the cart on target.com, then select checkout. Image 29: 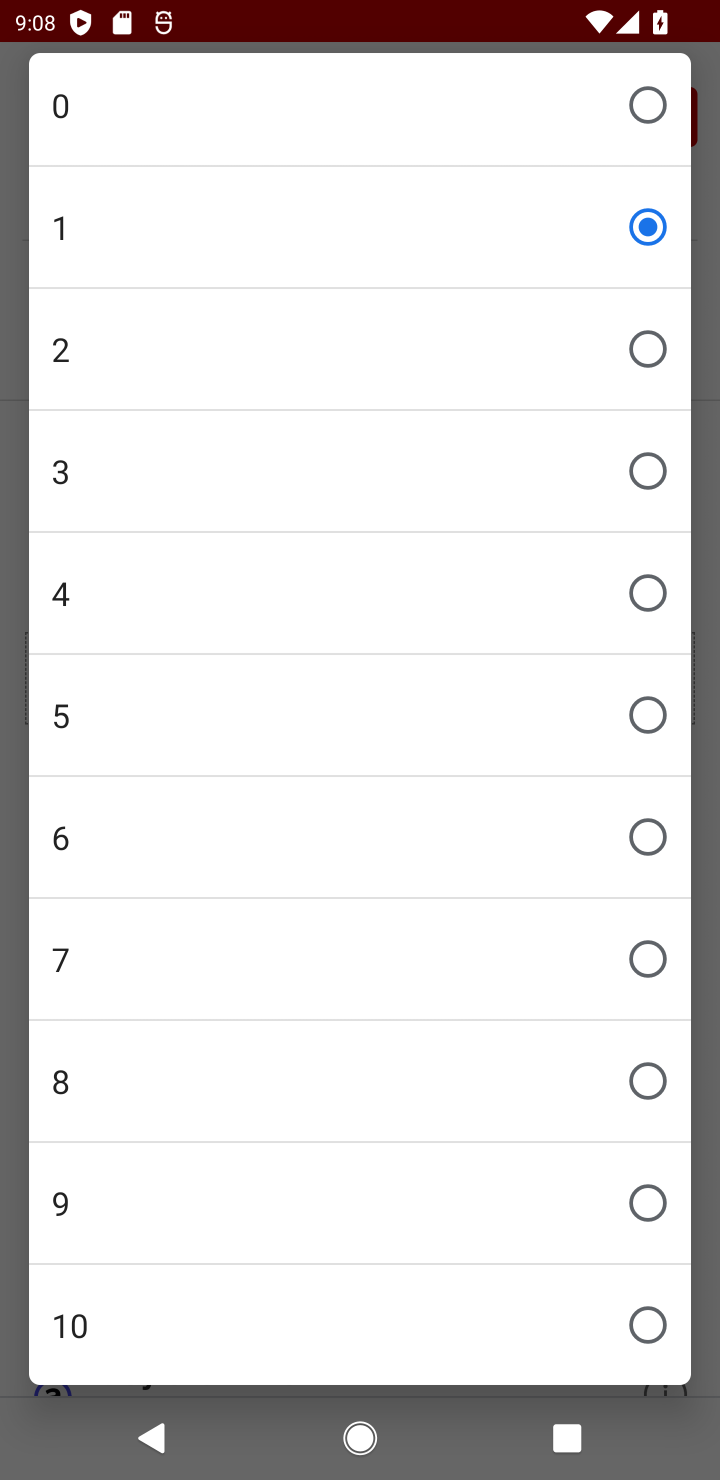
Step 29: click (649, 232)
Your task to perform on an android device: Empty the shopping cart on target.com. Add "usb-c" to the cart on target.com, then select checkout. Image 30: 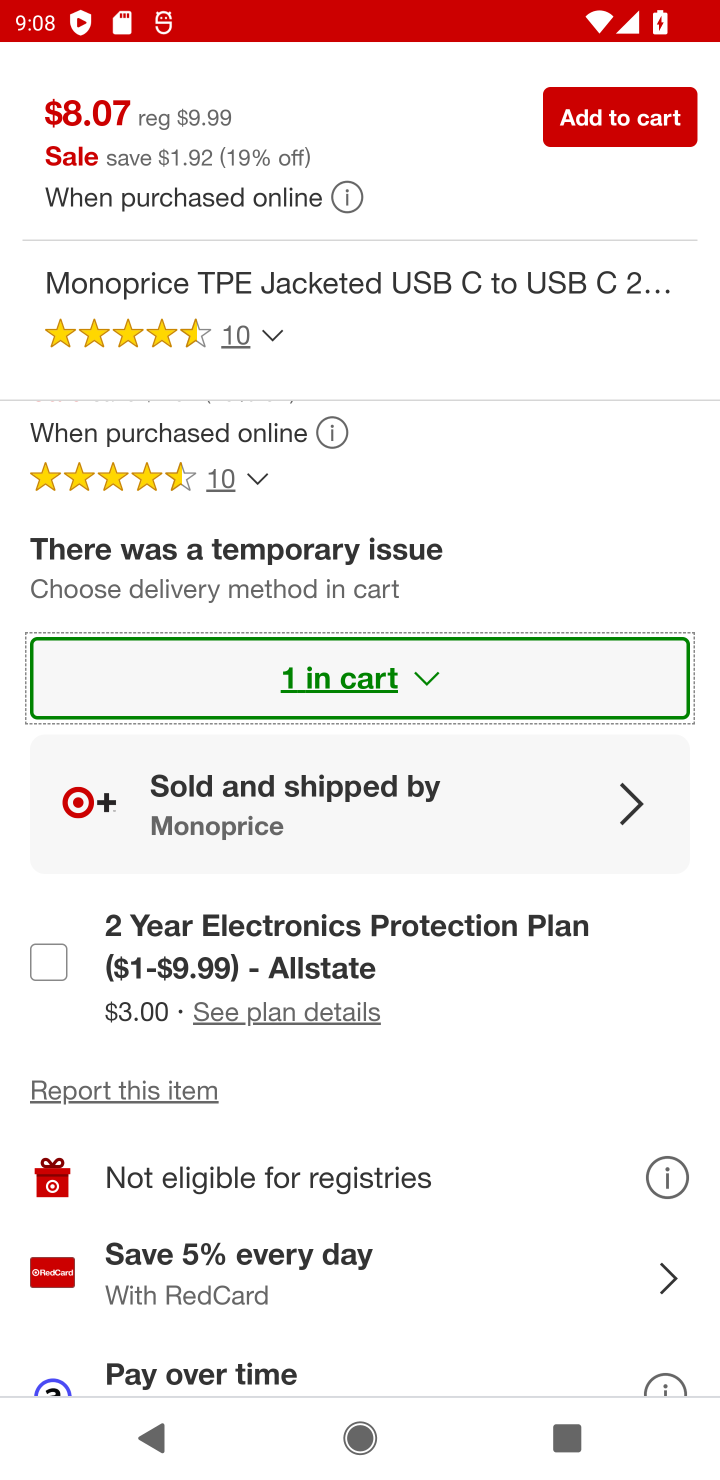
Step 30: drag from (212, 1211) to (496, 82)
Your task to perform on an android device: Empty the shopping cart on target.com. Add "usb-c" to the cart on target.com, then select checkout. Image 31: 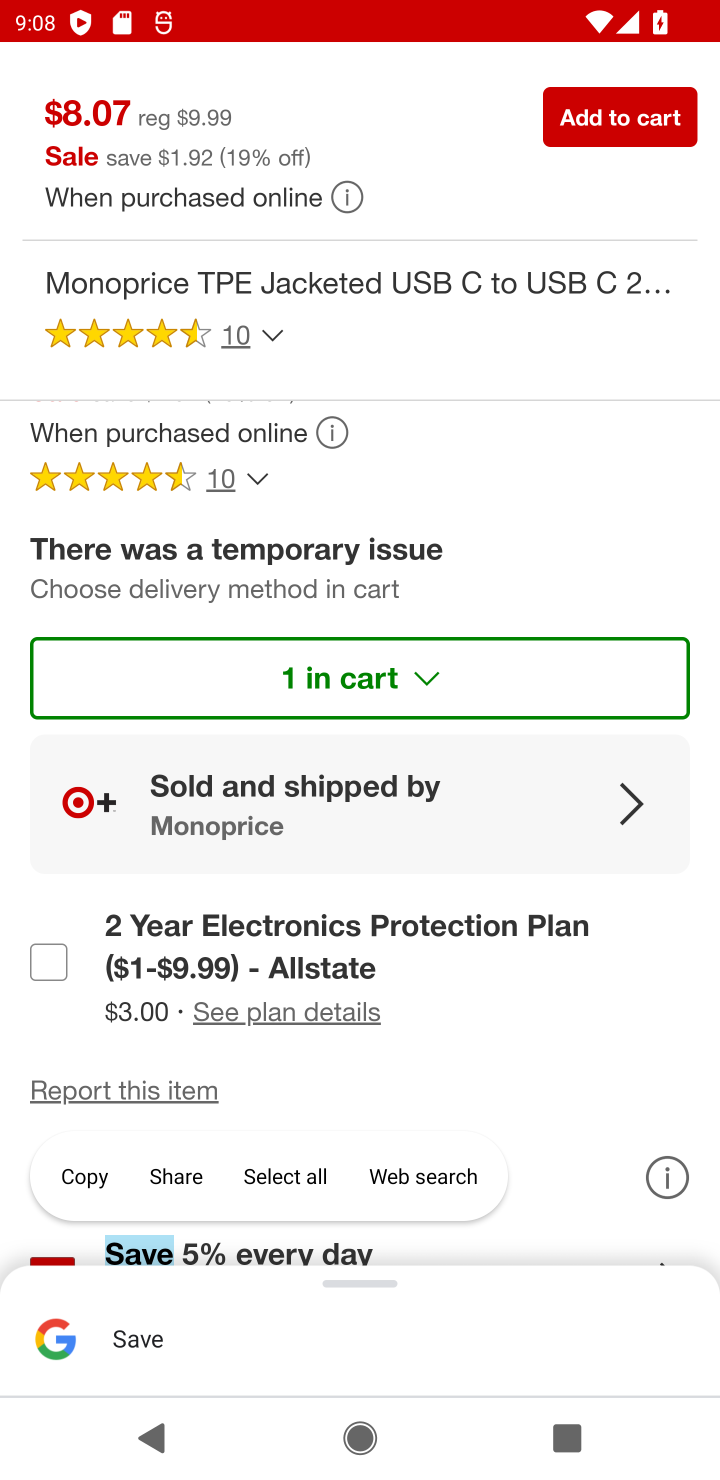
Step 31: drag from (443, 1210) to (640, 149)
Your task to perform on an android device: Empty the shopping cart on target.com. Add "usb-c" to the cart on target.com, then select checkout. Image 32: 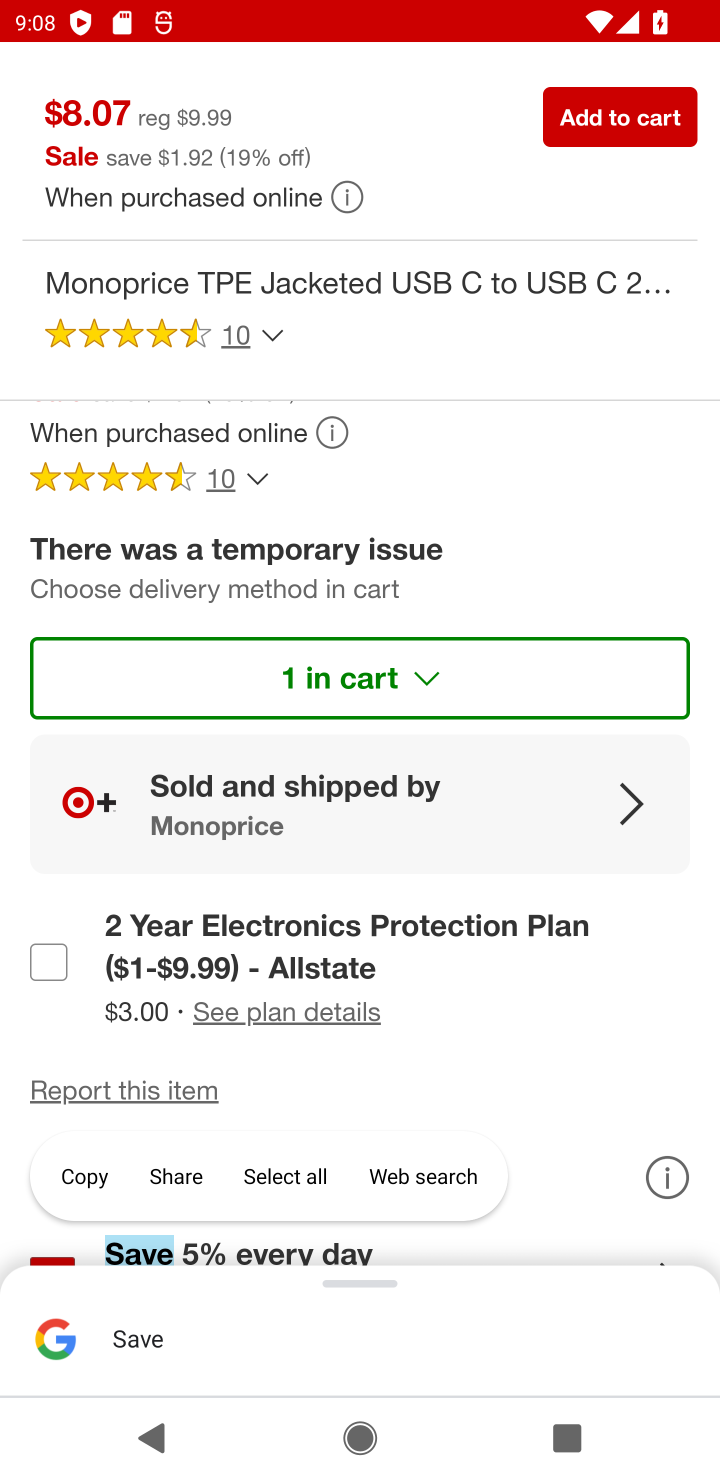
Step 32: drag from (417, 489) to (453, 1170)
Your task to perform on an android device: Empty the shopping cart on target.com. Add "usb-c" to the cart on target.com, then select checkout. Image 33: 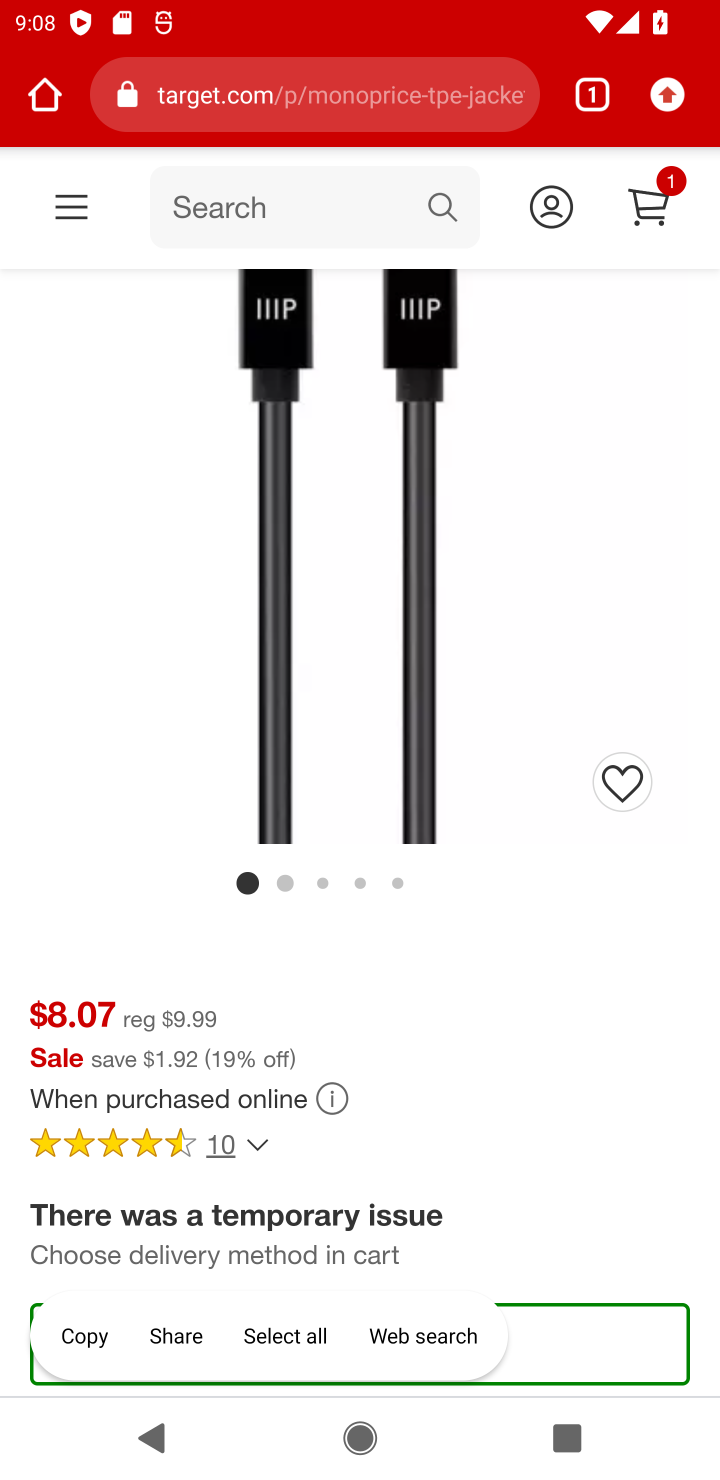
Step 33: click (655, 200)
Your task to perform on an android device: Empty the shopping cart on target.com. Add "usb-c" to the cart on target.com, then select checkout. Image 34: 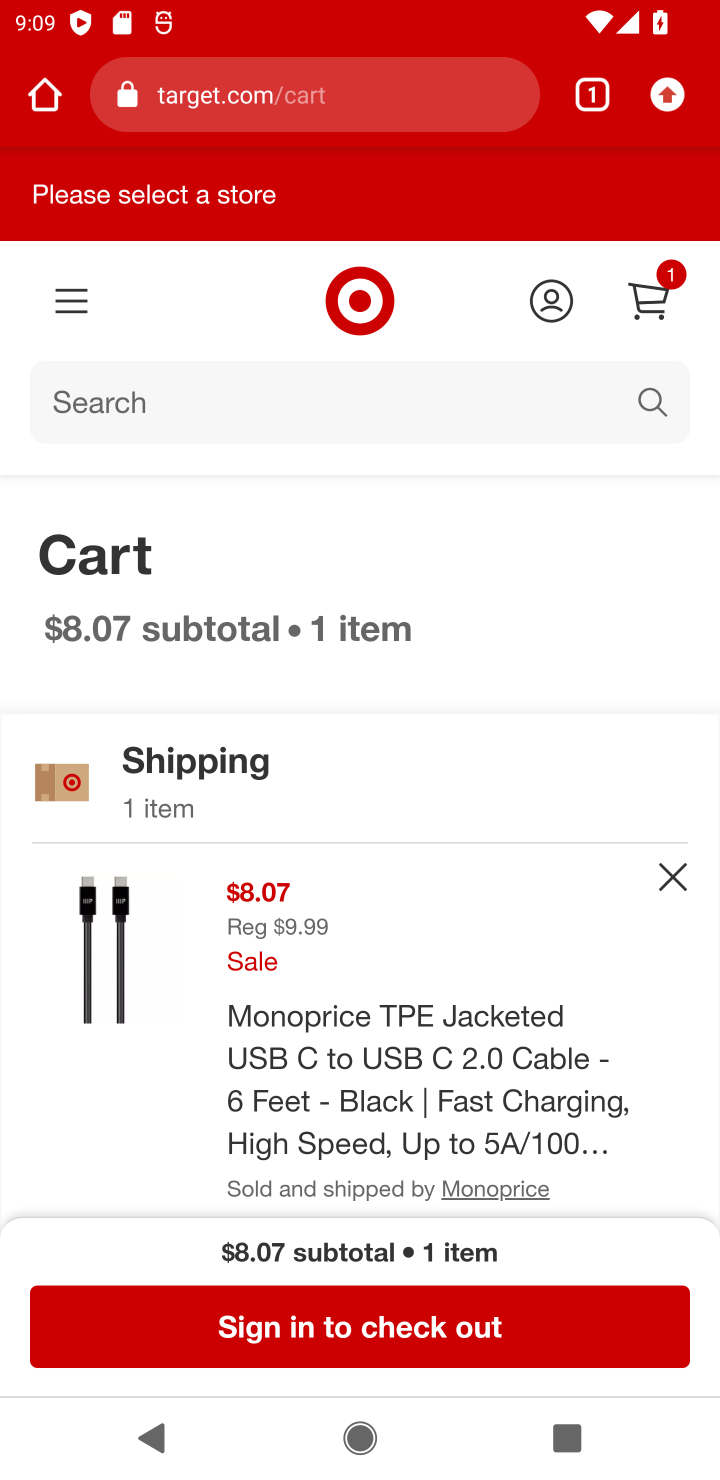
Step 34: click (397, 1329)
Your task to perform on an android device: Empty the shopping cart on target.com. Add "usb-c" to the cart on target.com, then select checkout. Image 35: 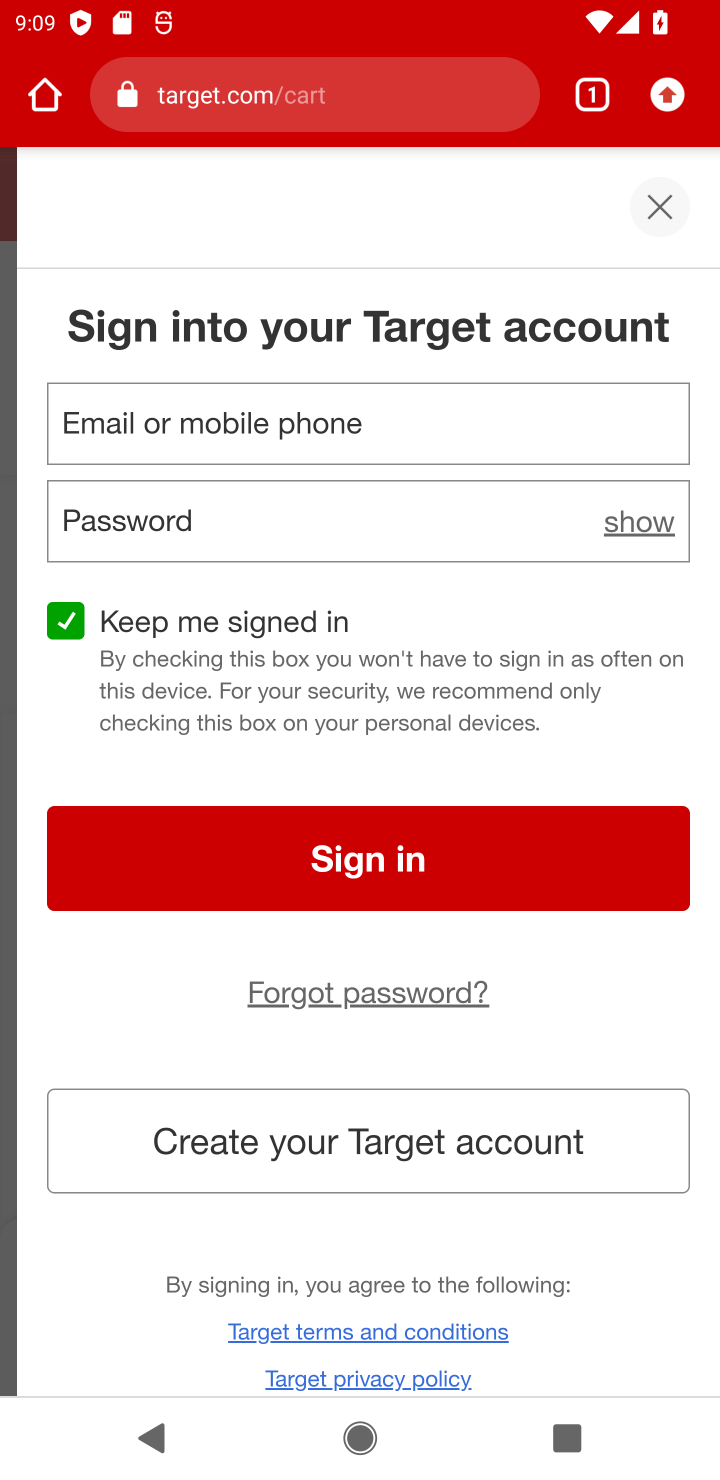
Step 35: task complete